Your task to perform on an android device: Where can I buy a nice beach tent? Image 0: 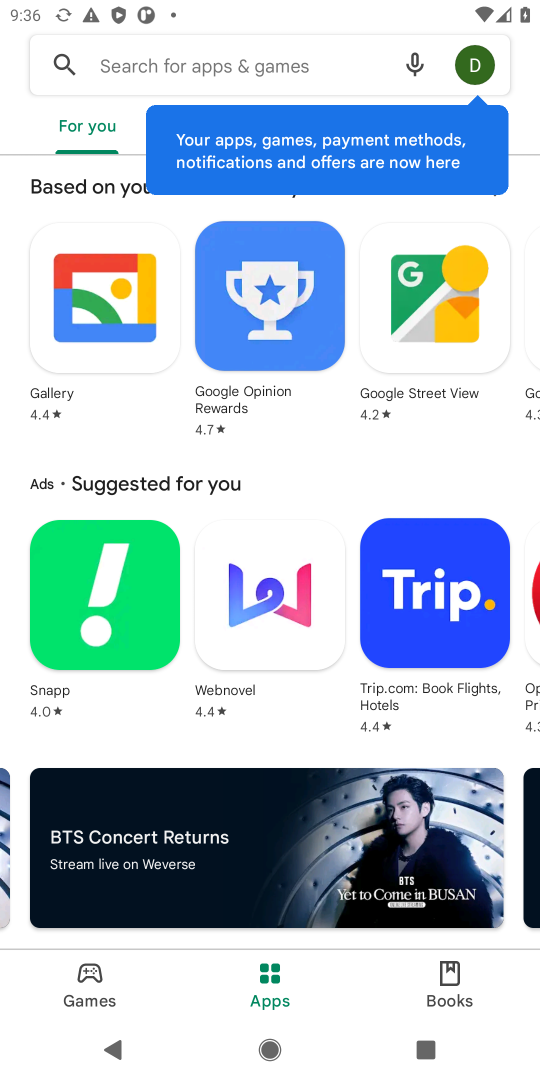
Step 0: press home button
Your task to perform on an android device: Where can I buy a nice beach tent? Image 1: 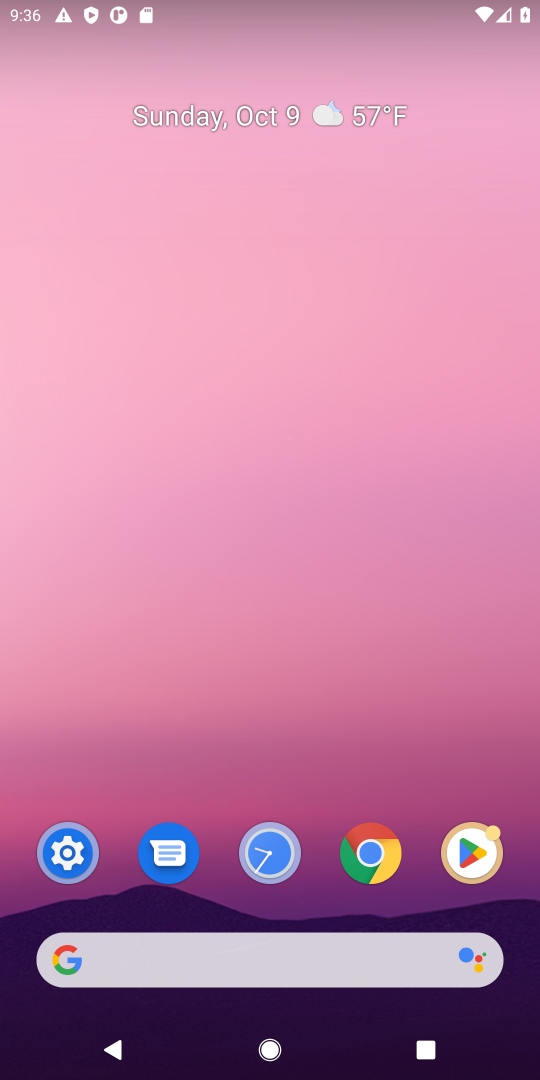
Step 1: click (357, 858)
Your task to perform on an android device: Where can I buy a nice beach tent? Image 2: 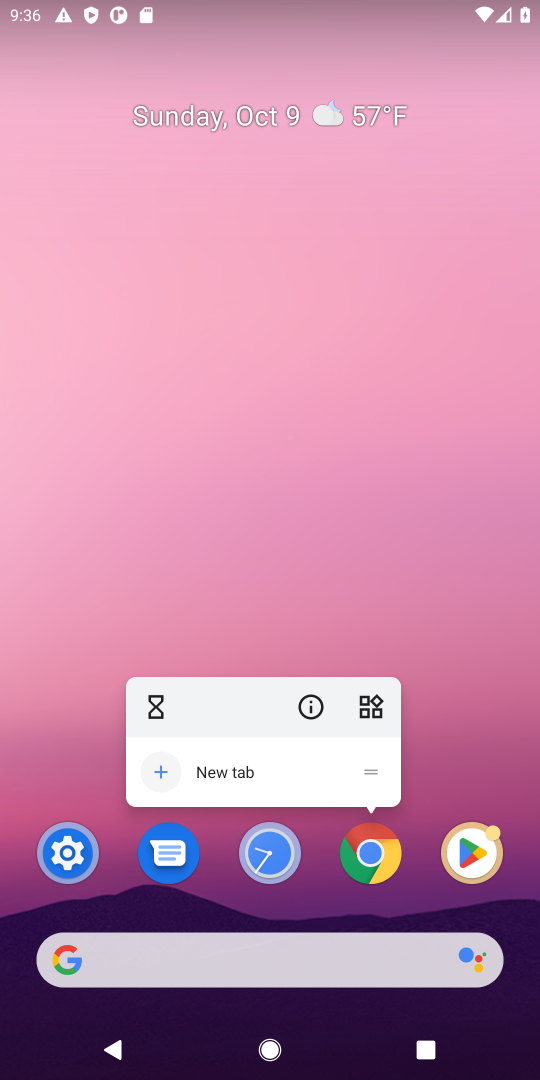
Step 2: click (430, 921)
Your task to perform on an android device: Where can I buy a nice beach tent? Image 3: 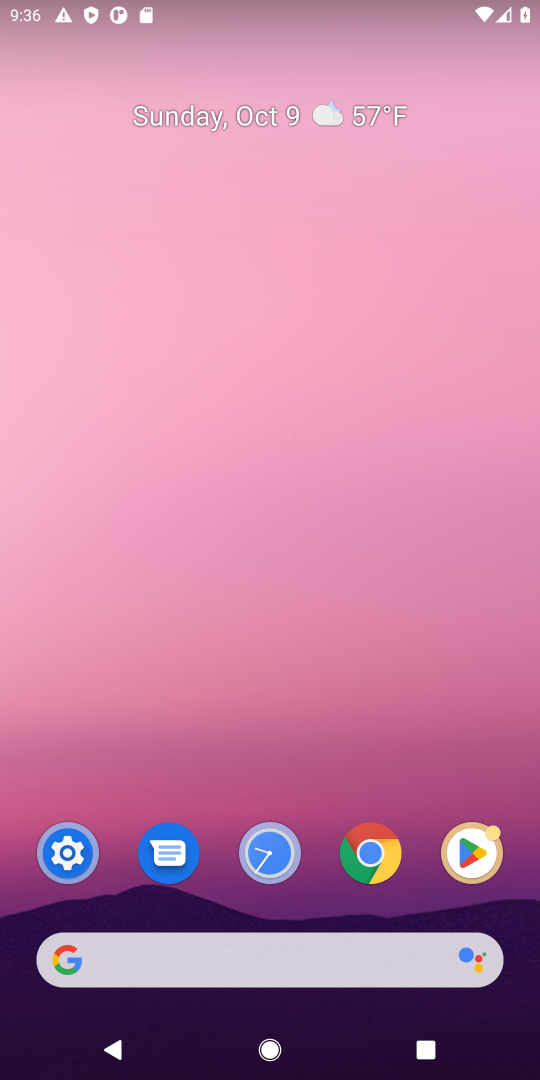
Step 3: click (386, 871)
Your task to perform on an android device: Where can I buy a nice beach tent? Image 4: 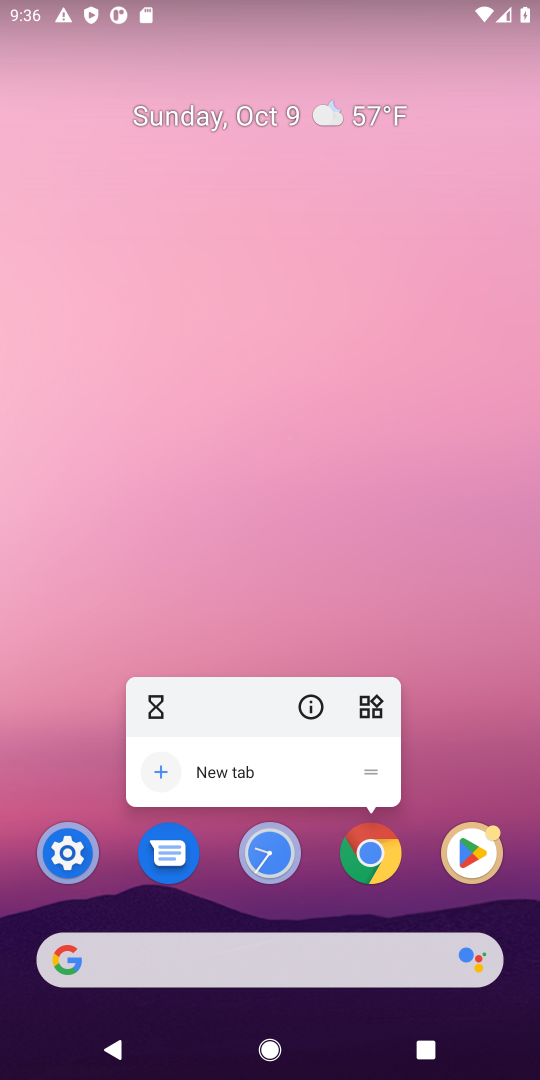
Step 4: click (322, 967)
Your task to perform on an android device: Where can I buy a nice beach tent? Image 5: 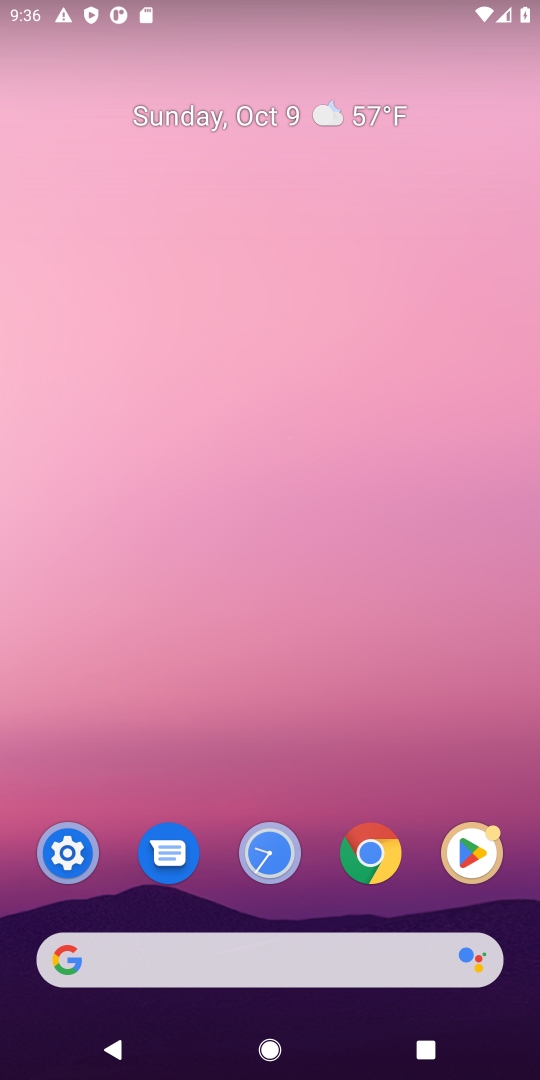
Step 5: click (289, 959)
Your task to perform on an android device: Where can I buy a nice beach tent? Image 6: 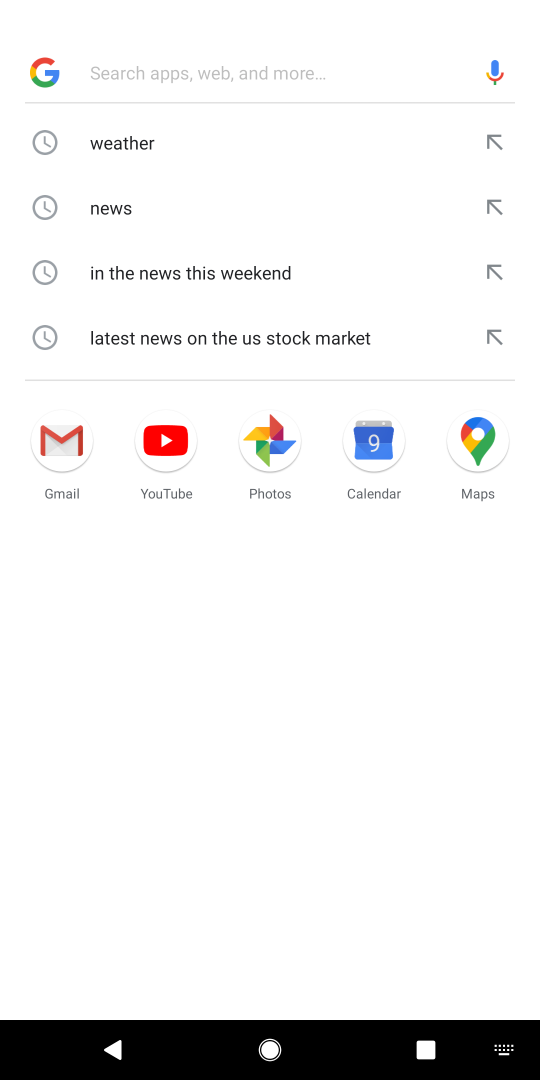
Step 6: type "Where can I buy a nice beach tent?"
Your task to perform on an android device: Where can I buy a nice beach tent? Image 7: 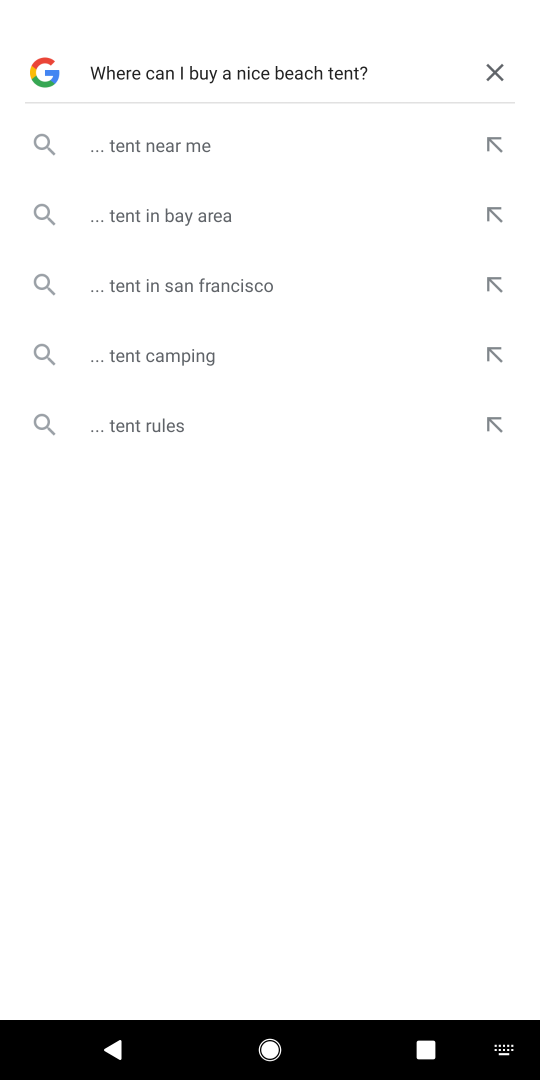
Step 7: type ""
Your task to perform on an android device: Where can I buy a nice beach tent? Image 8: 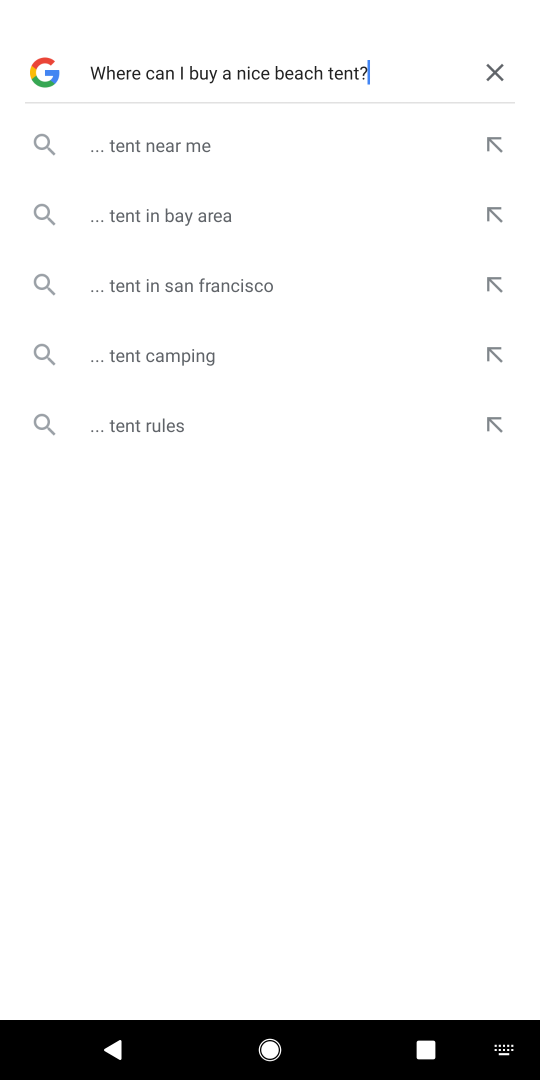
Step 8: press enter
Your task to perform on an android device: Where can I buy a nice beach tent? Image 9: 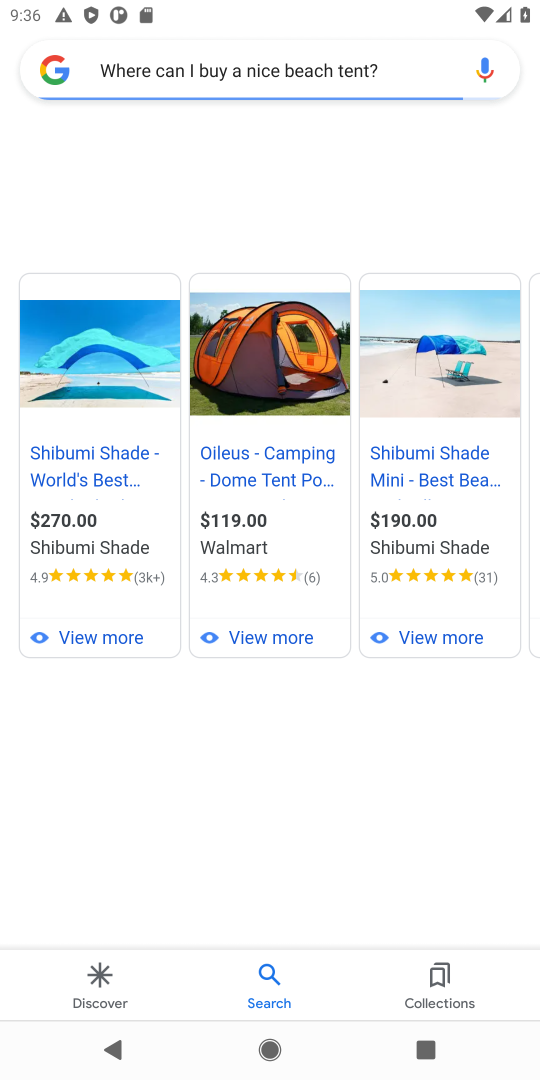
Step 9: drag from (222, 752) to (332, 284)
Your task to perform on an android device: Where can I buy a nice beach tent? Image 10: 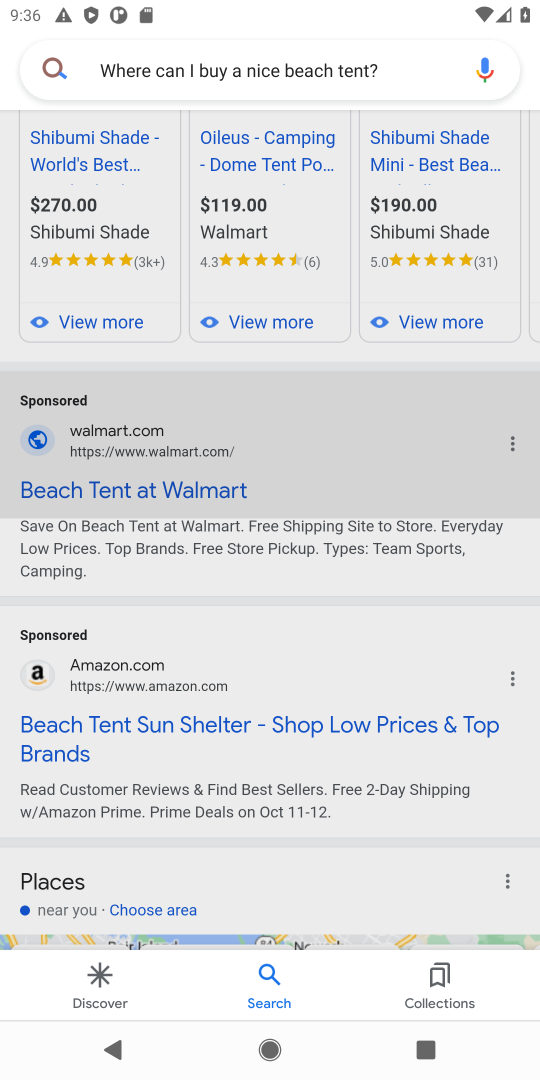
Step 10: drag from (294, 760) to (358, 303)
Your task to perform on an android device: Where can I buy a nice beach tent? Image 11: 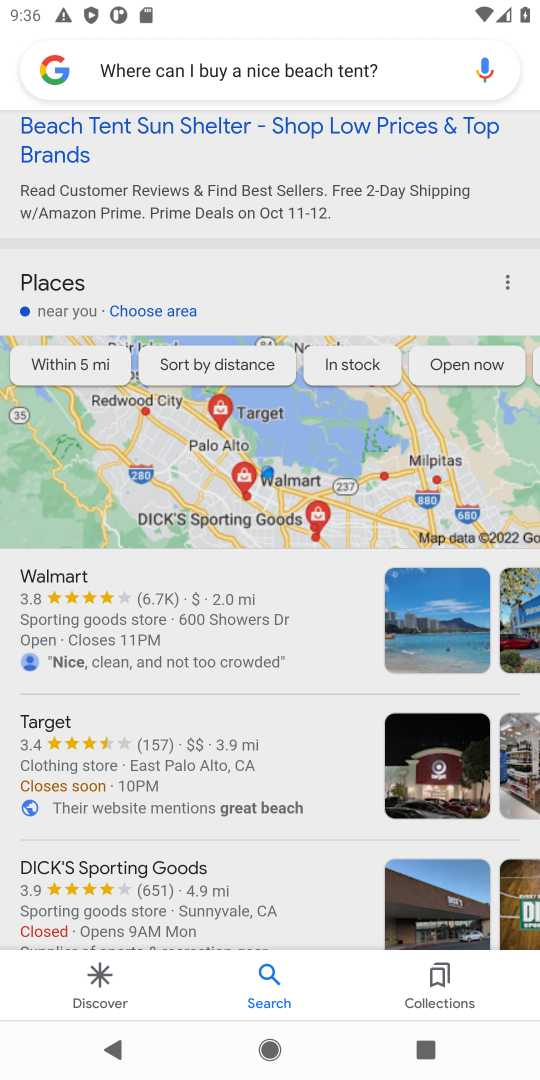
Step 11: drag from (315, 791) to (334, 305)
Your task to perform on an android device: Where can I buy a nice beach tent? Image 12: 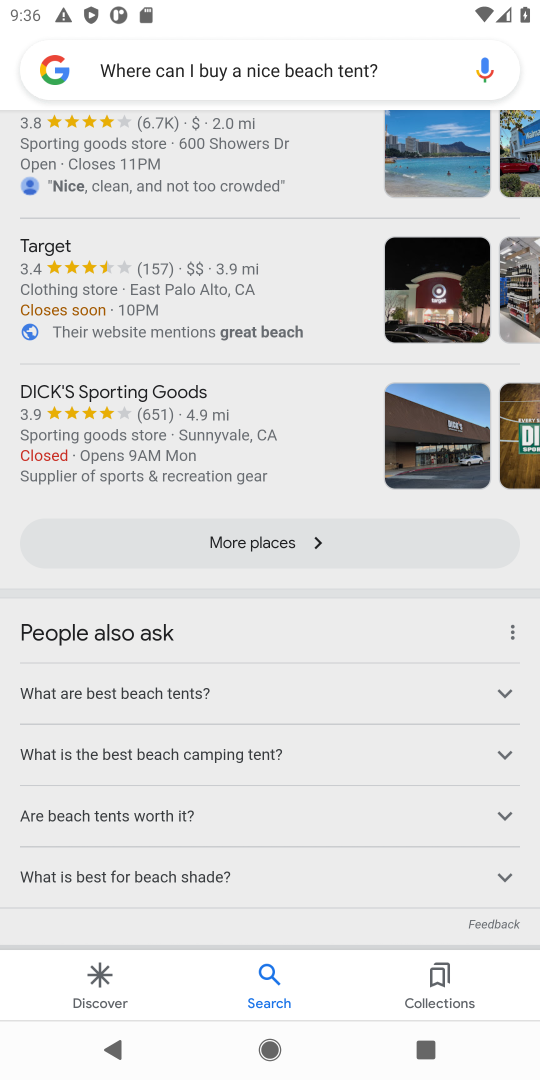
Step 12: drag from (378, 775) to (403, 322)
Your task to perform on an android device: Where can I buy a nice beach tent? Image 13: 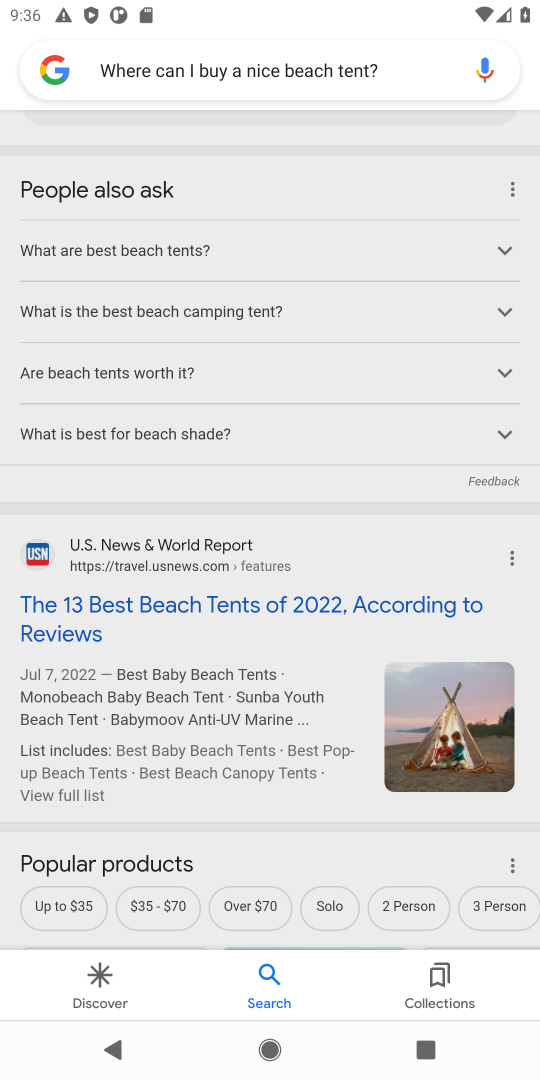
Step 13: drag from (351, 812) to (324, 400)
Your task to perform on an android device: Where can I buy a nice beach tent? Image 14: 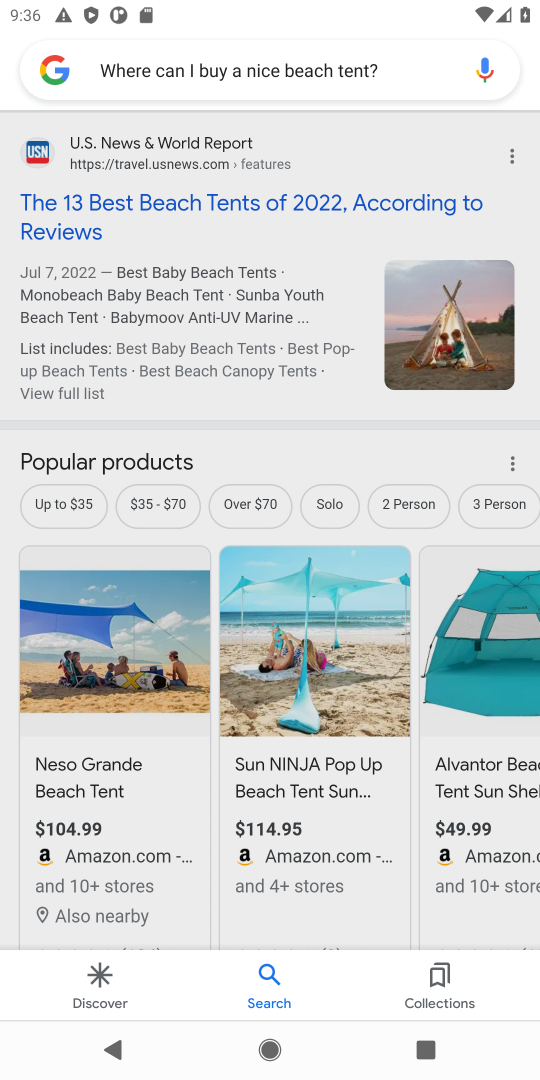
Step 14: drag from (380, 837) to (360, 318)
Your task to perform on an android device: Where can I buy a nice beach tent? Image 15: 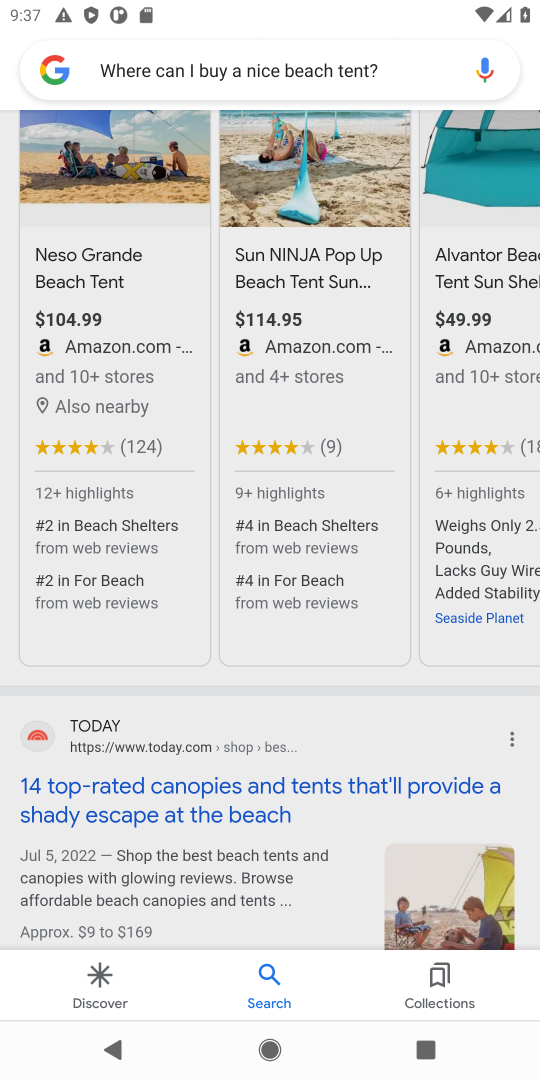
Step 15: drag from (299, 360) to (311, 894)
Your task to perform on an android device: Where can I buy a nice beach tent? Image 16: 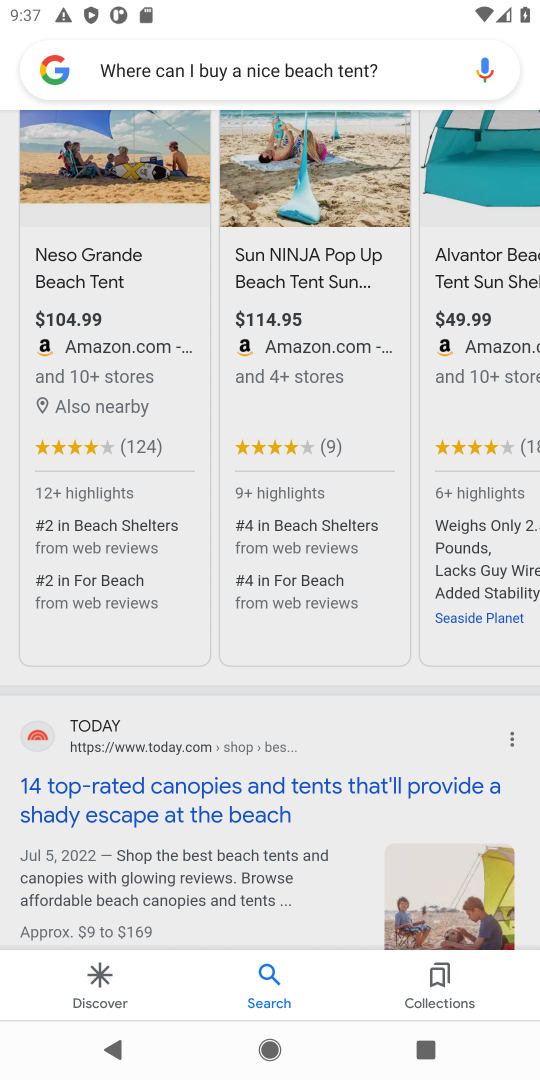
Step 16: drag from (257, 274) to (295, 784)
Your task to perform on an android device: Where can I buy a nice beach tent? Image 17: 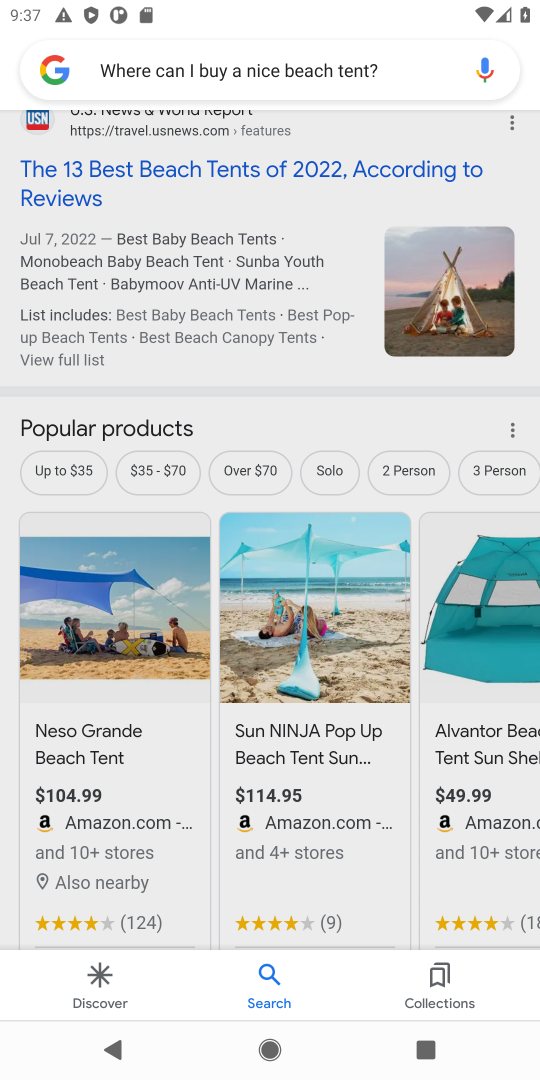
Step 17: drag from (272, 368) to (278, 697)
Your task to perform on an android device: Where can I buy a nice beach tent? Image 18: 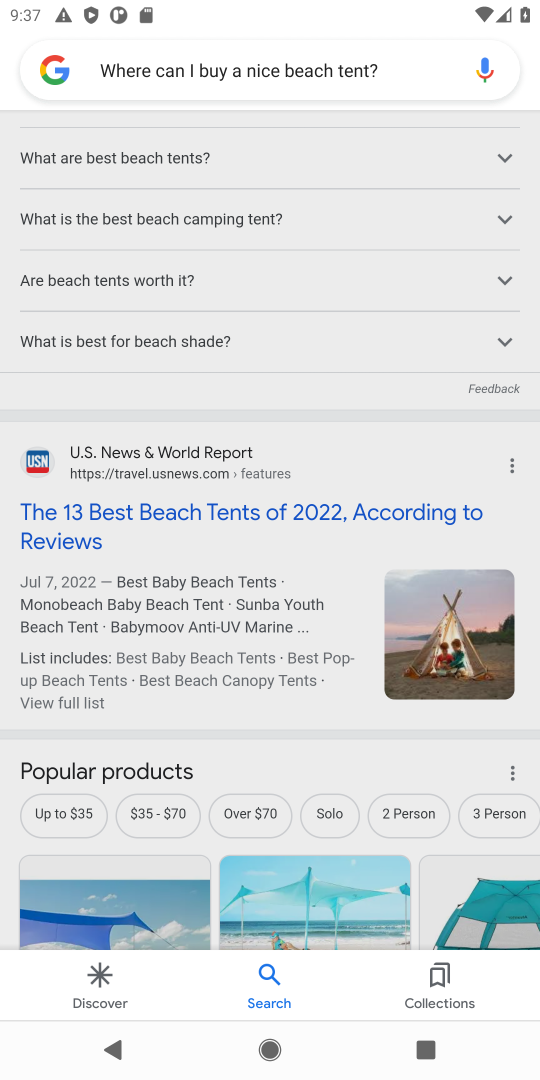
Step 18: drag from (239, 361) to (240, 696)
Your task to perform on an android device: Where can I buy a nice beach tent? Image 19: 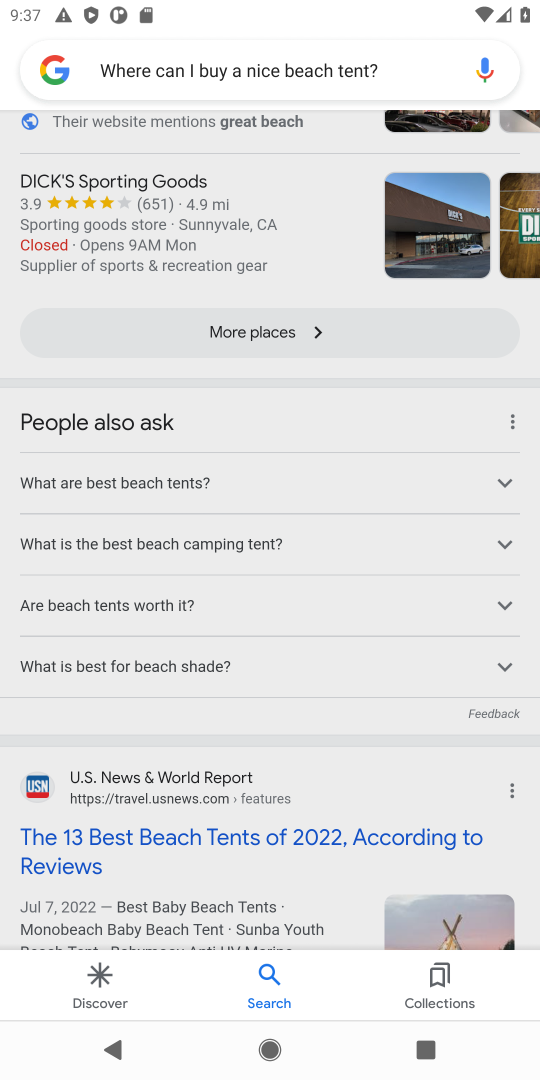
Step 19: drag from (280, 436) to (266, 577)
Your task to perform on an android device: Where can I buy a nice beach tent? Image 20: 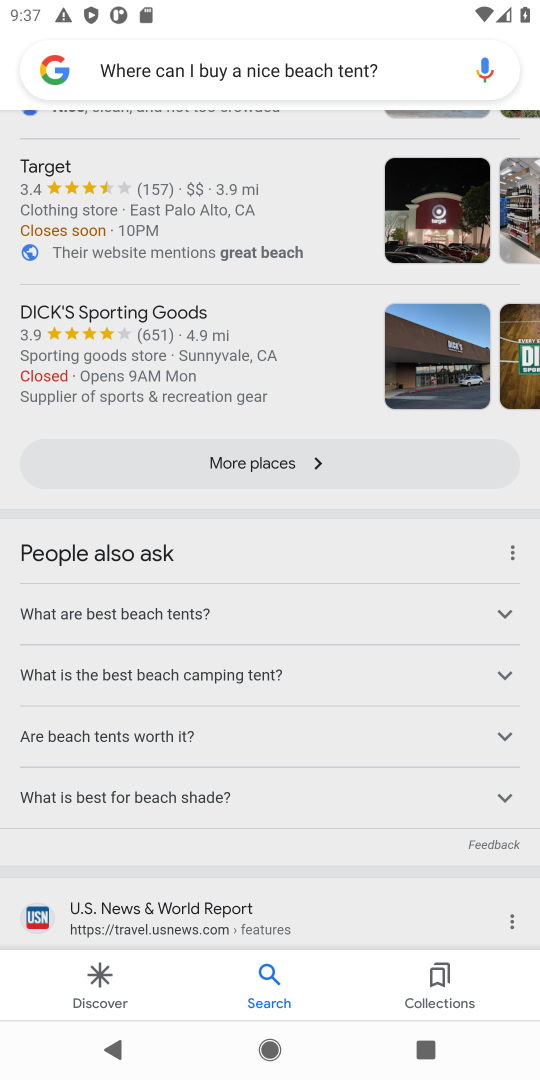
Step 20: drag from (237, 231) to (307, 898)
Your task to perform on an android device: Where can I buy a nice beach tent? Image 21: 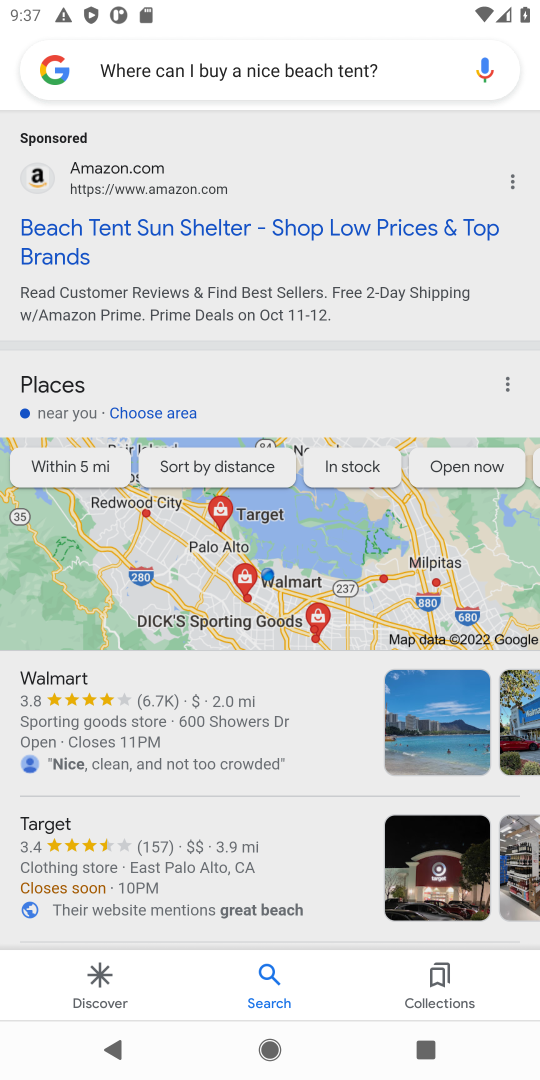
Step 21: drag from (338, 282) to (357, 946)
Your task to perform on an android device: Where can I buy a nice beach tent? Image 22: 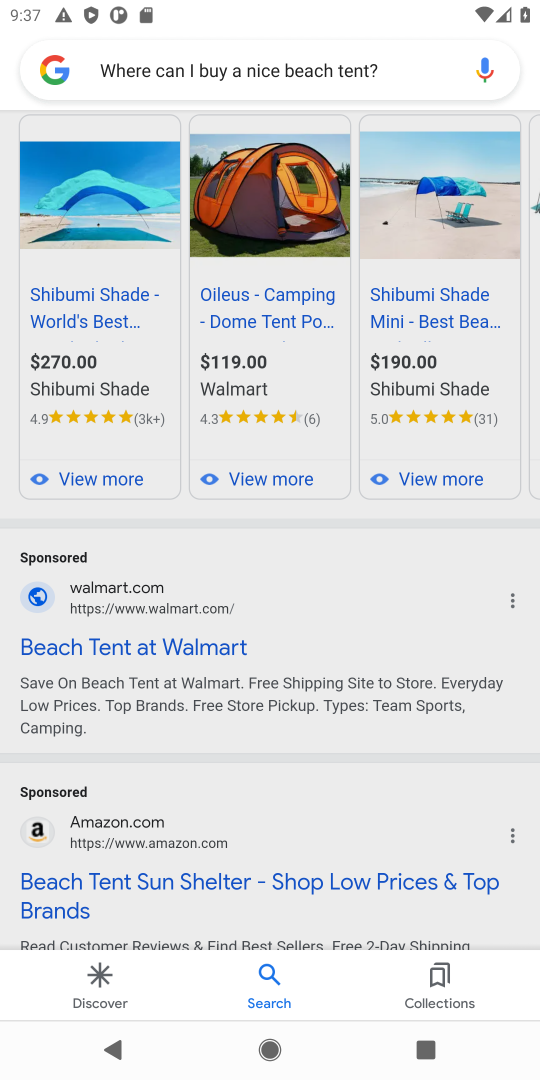
Step 22: drag from (172, 279) to (254, 886)
Your task to perform on an android device: Where can I buy a nice beach tent? Image 23: 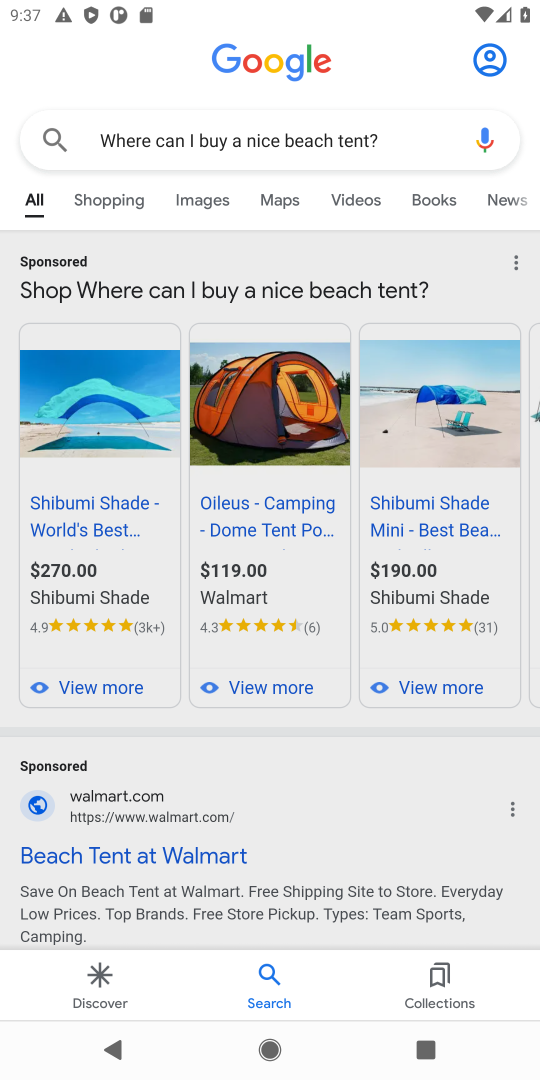
Step 23: click (113, 585)
Your task to perform on an android device: Where can I buy a nice beach tent? Image 24: 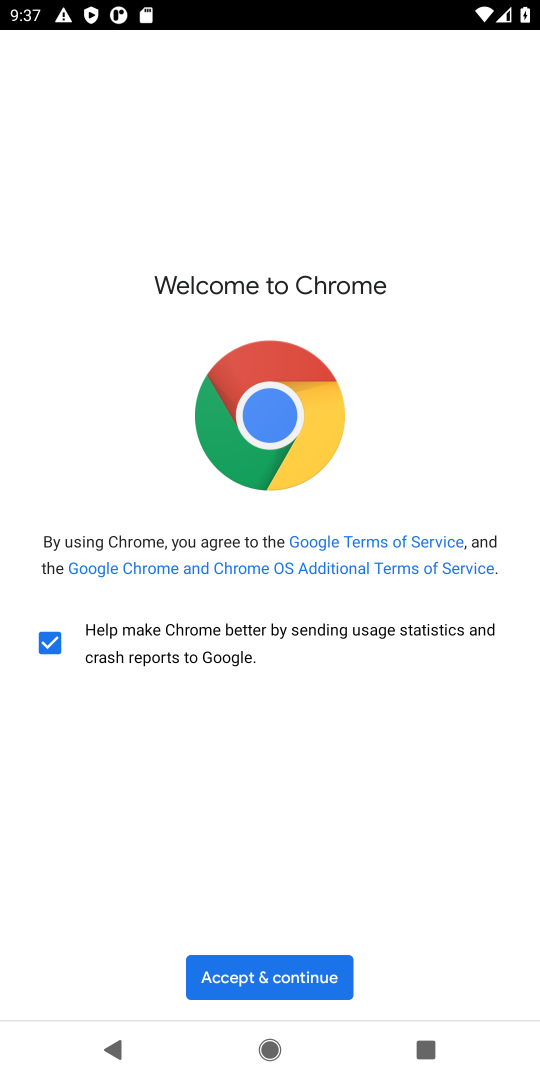
Step 24: click (285, 992)
Your task to perform on an android device: Where can I buy a nice beach tent? Image 25: 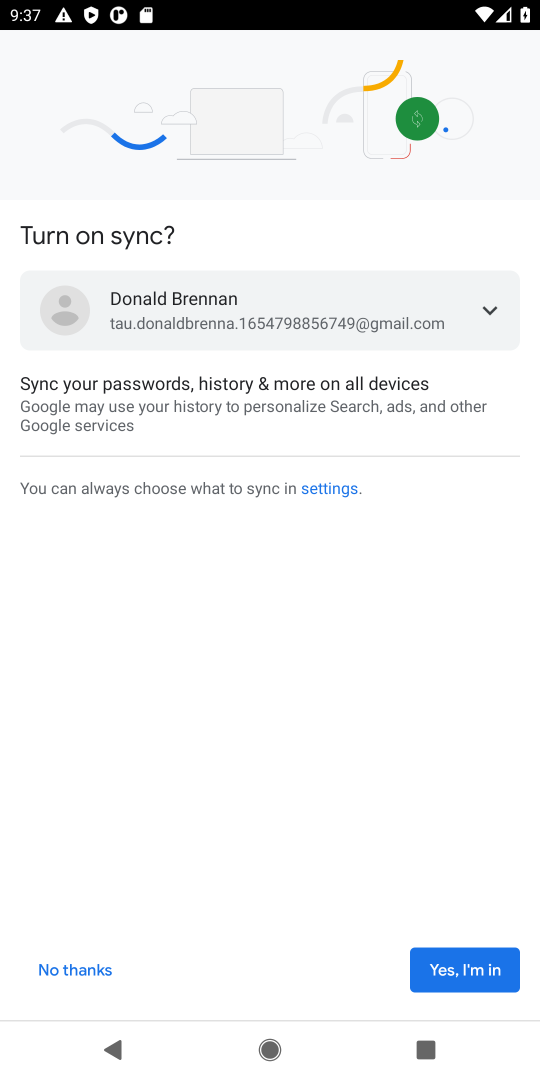
Step 25: click (425, 975)
Your task to perform on an android device: Where can I buy a nice beach tent? Image 26: 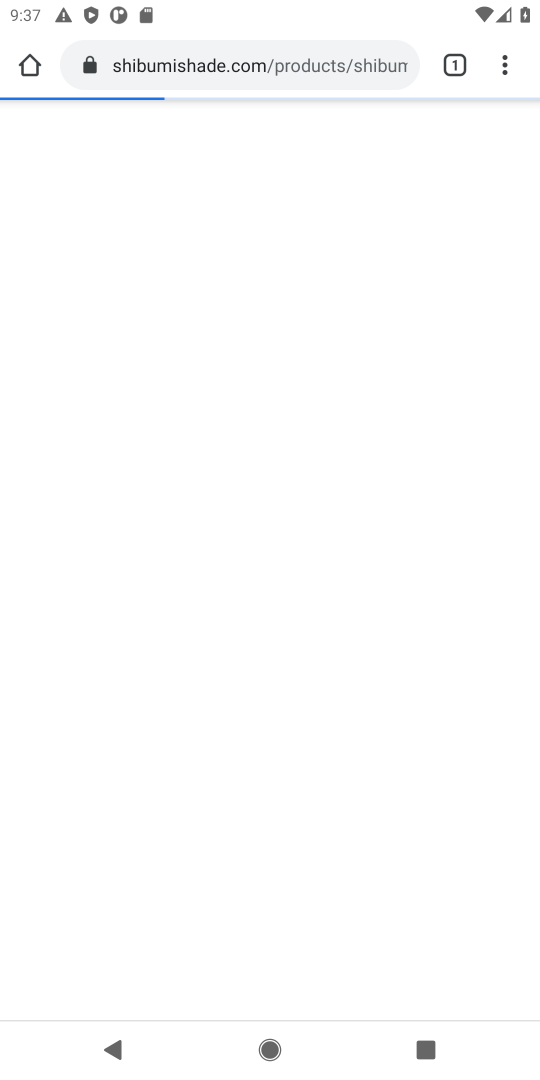
Step 26: drag from (425, 975) to (399, 263)
Your task to perform on an android device: Where can I buy a nice beach tent? Image 27: 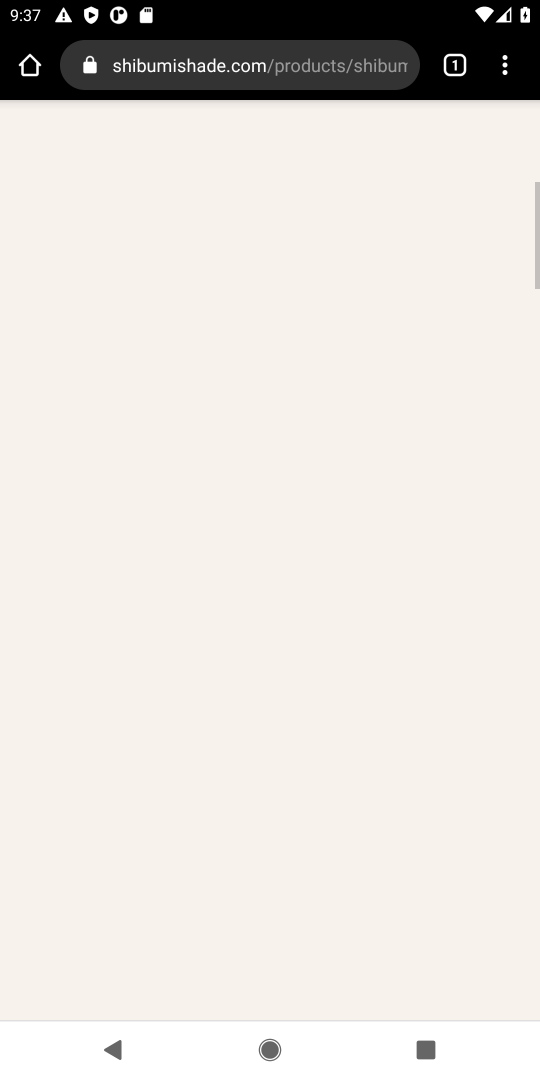
Step 27: drag from (322, 770) to (389, 184)
Your task to perform on an android device: Where can I buy a nice beach tent? Image 28: 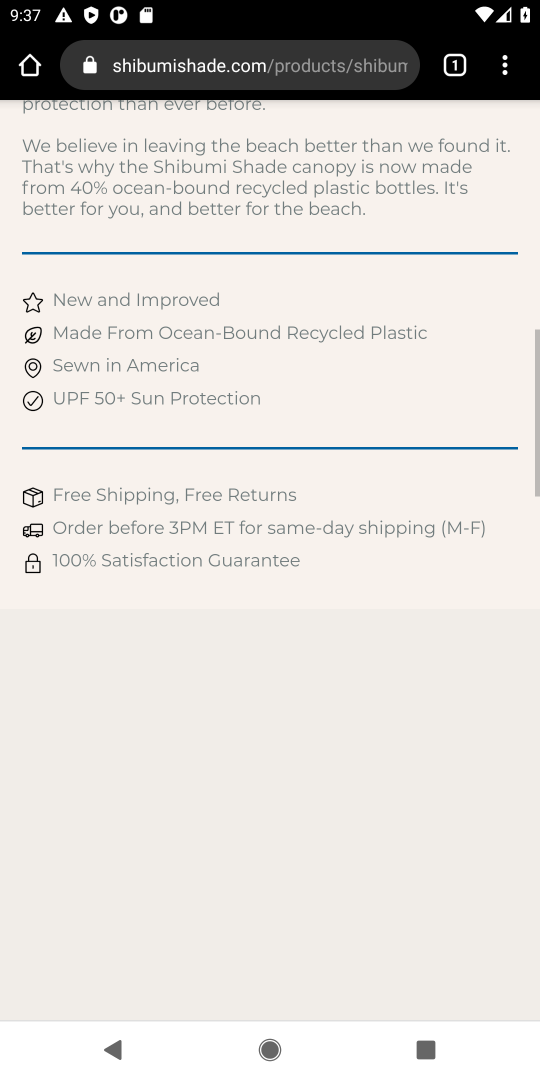
Step 28: drag from (377, 751) to (389, 286)
Your task to perform on an android device: Where can I buy a nice beach tent? Image 29: 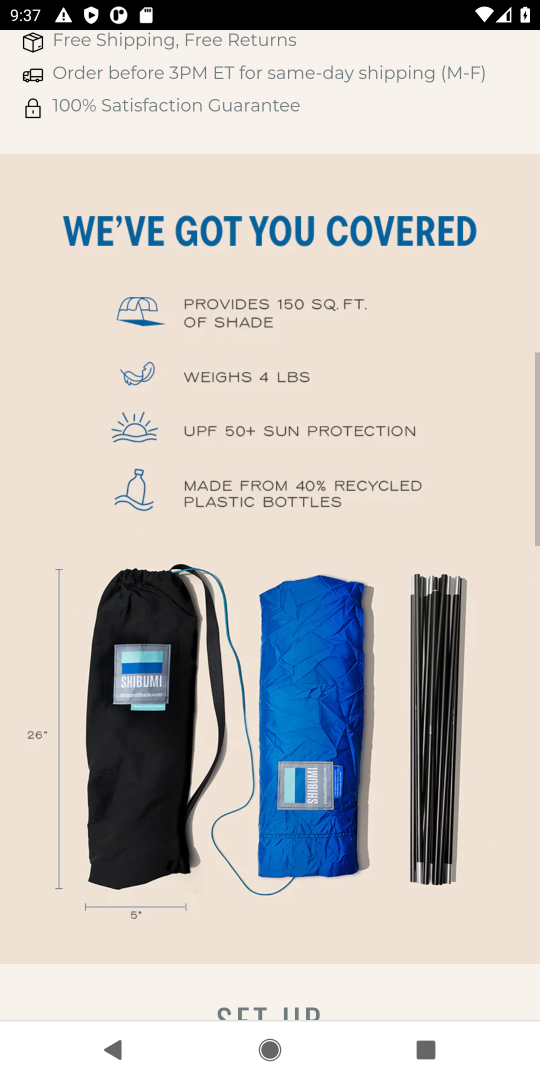
Step 29: drag from (359, 797) to (413, 143)
Your task to perform on an android device: Where can I buy a nice beach tent? Image 30: 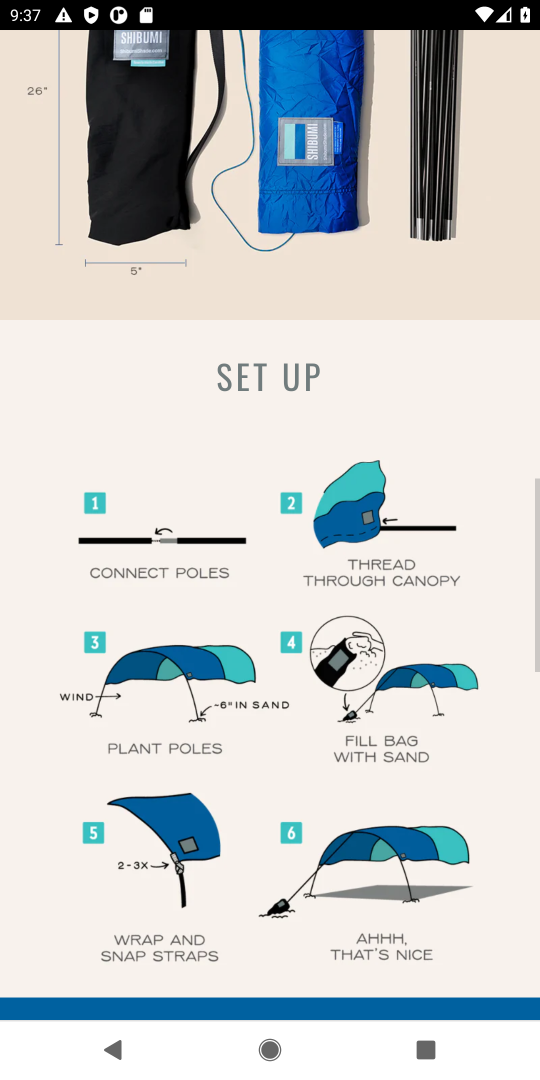
Step 30: drag from (426, 670) to (435, 147)
Your task to perform on an android device: Where can I buy a nice beach tent? Image 31: 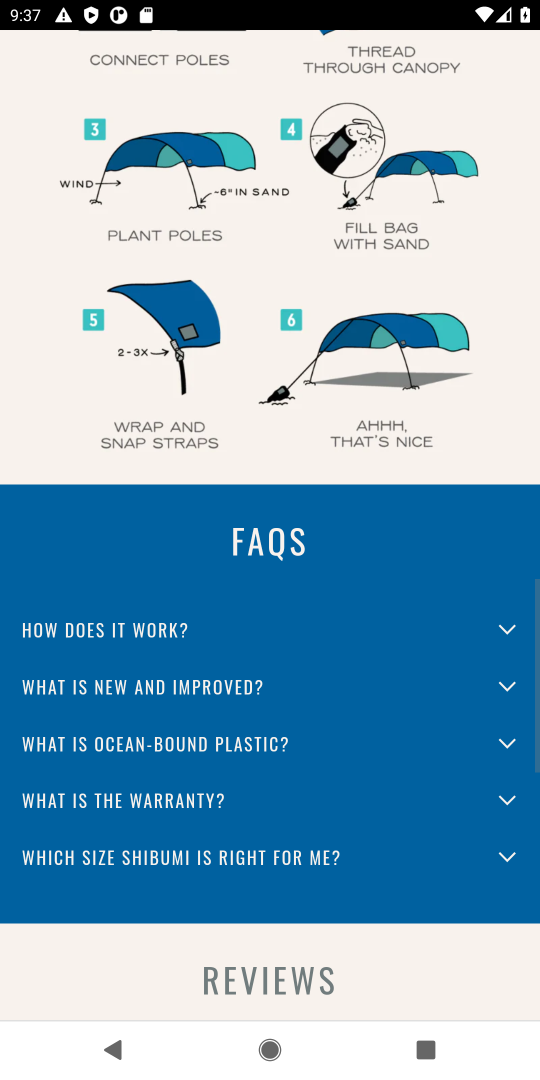
Step 31: drag from (393, 765) to (421, 41)
Your task to perform on an android device: Where can I buy a nice beach tent? Image 32: 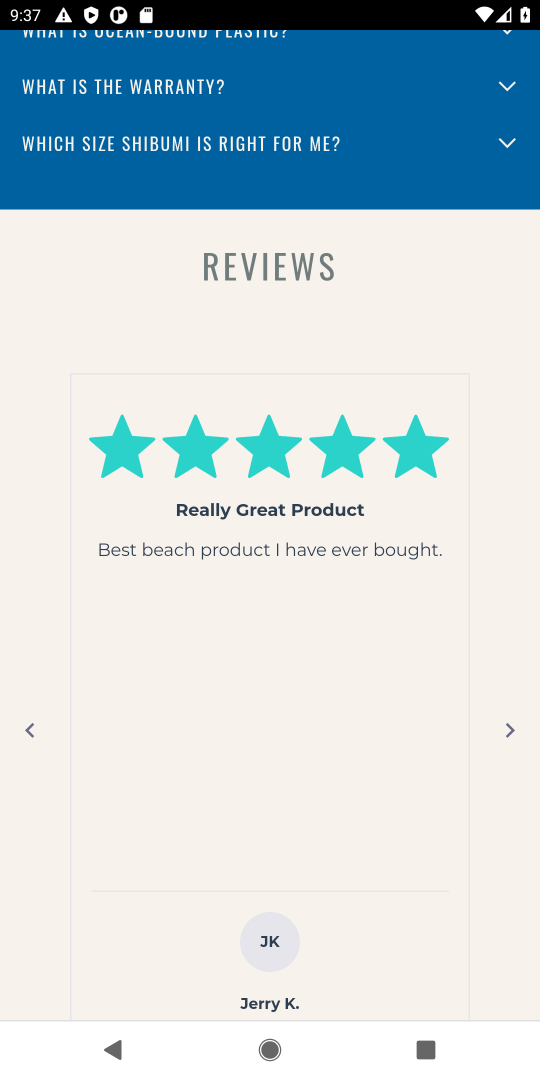
Step 32: drag from (413, 953) to (431, 18)
Your task to perform on an android device: Where can I buy a nice beach tent? Image 33: 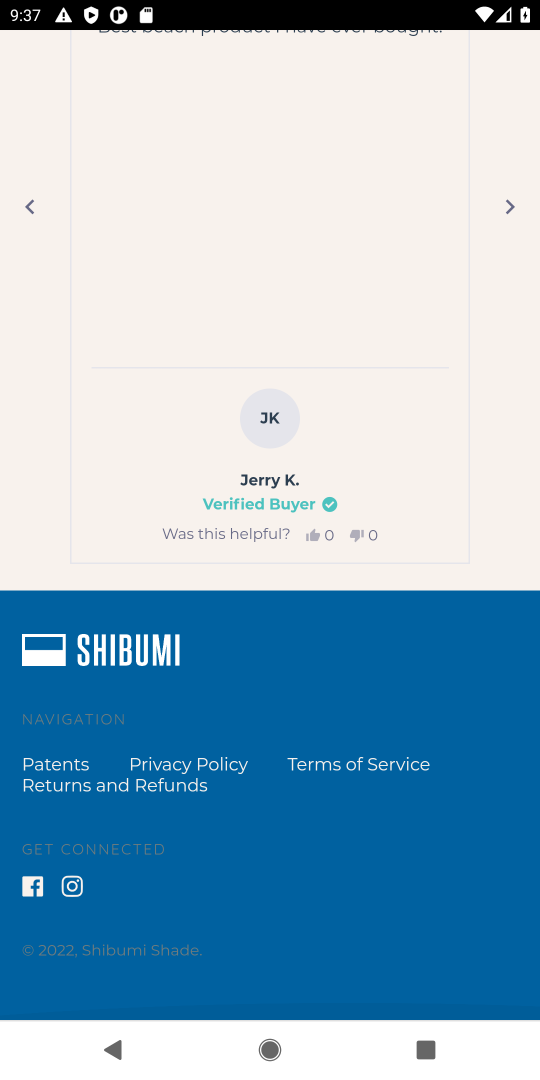
Step 33: drag from (406, 919) to (456, 122)
Your task to perform on an android device: Where can I buy a nice beach tent? Image 34: 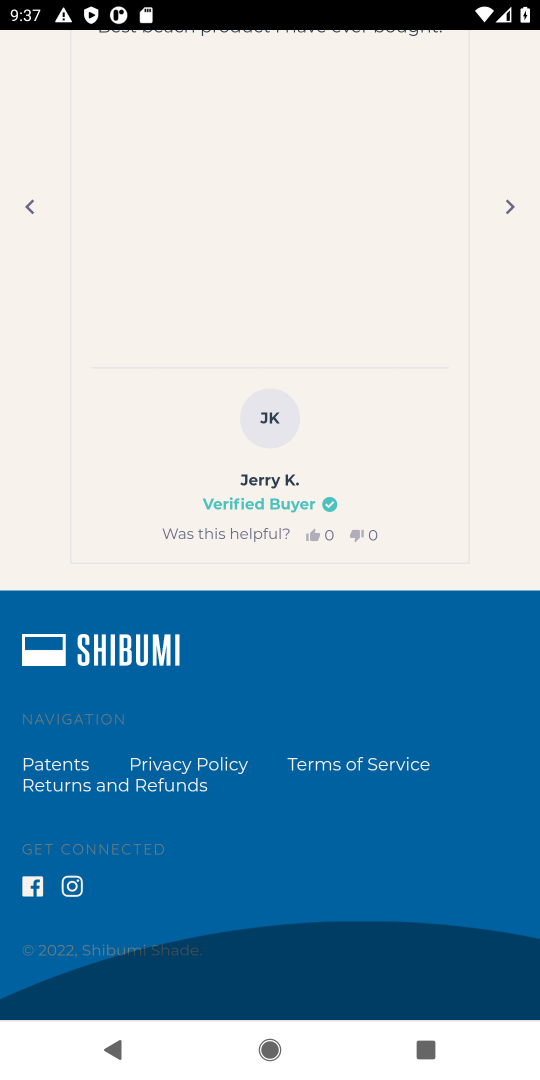
Step 34: drag from (415, 215) to (413, 968)
Your task to perform on an android device: Where can I buy a nice beach tent? Image 35: 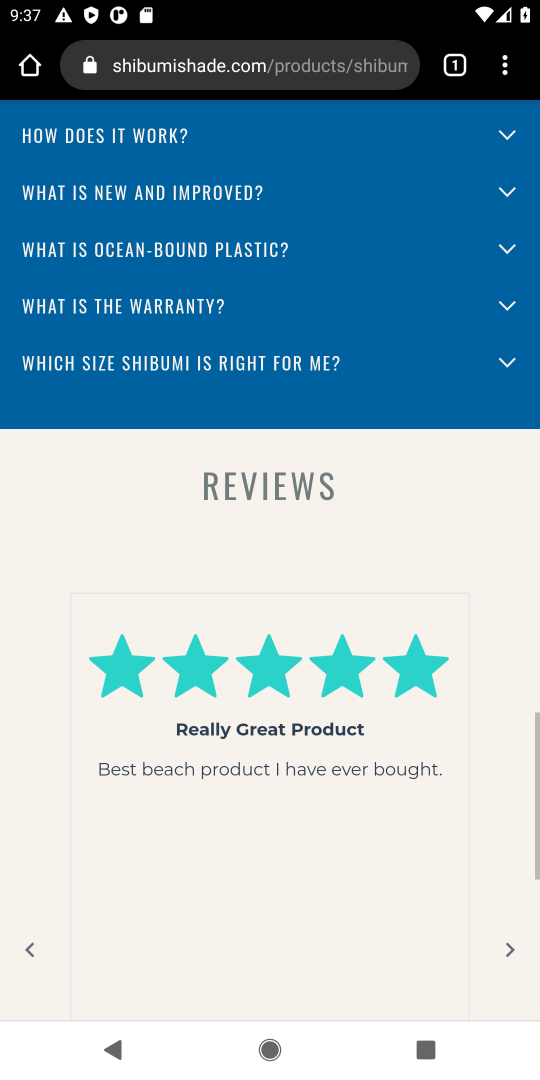
Step 35: drag from (363, 297) to (367, 912)
Your task to perform on an android device: Where can I buy a nice beach tent? Image 36: 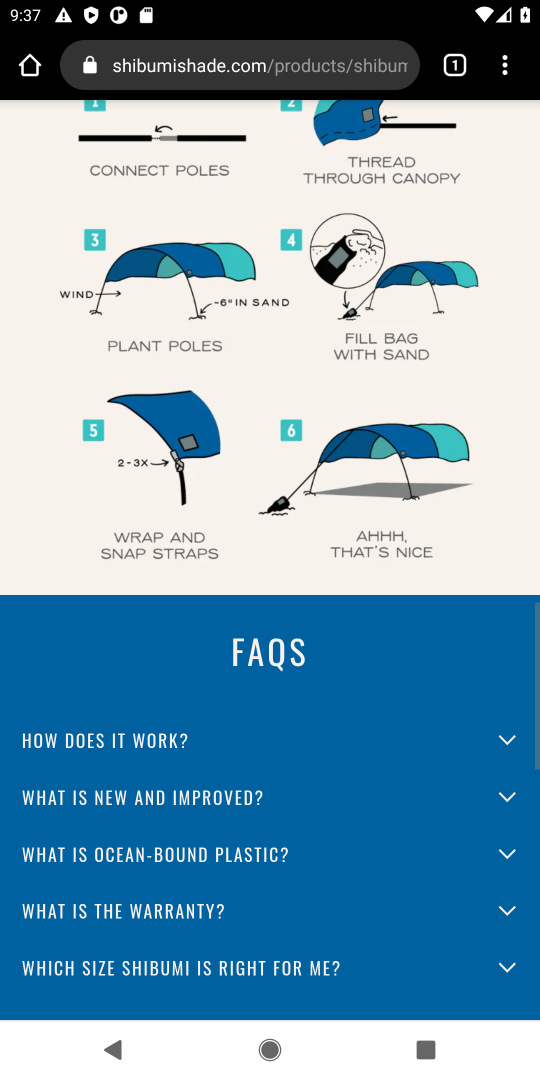
Step 36: drag from (356, 334) to (360, 966)
Your task to perform on an android device: Where can I buy a nice beach tent? Image 37: 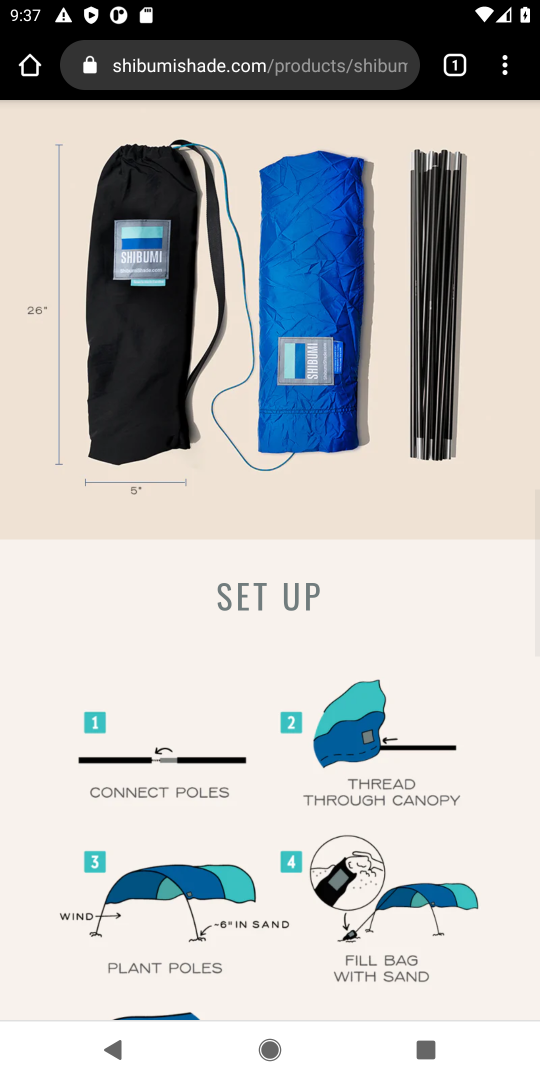
Step 37: drag from (307, 278) to (346, 728)
Your task to perform on an android device: Where can I buy a nice beach tent? Image 38: 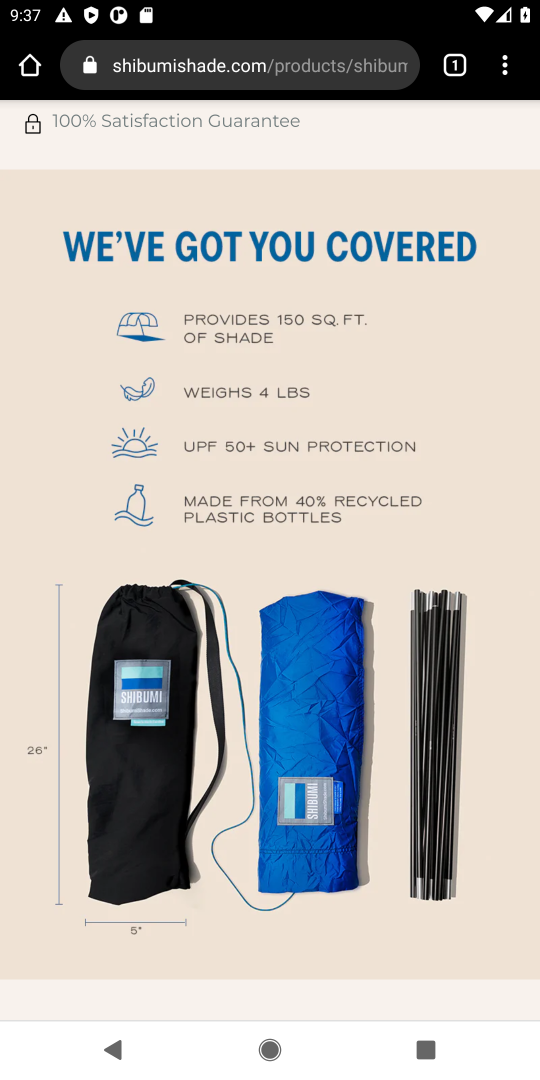
Step 38: press back button
Your task to perform on an android device: Where can I buy a nice beach tent? Image 39: 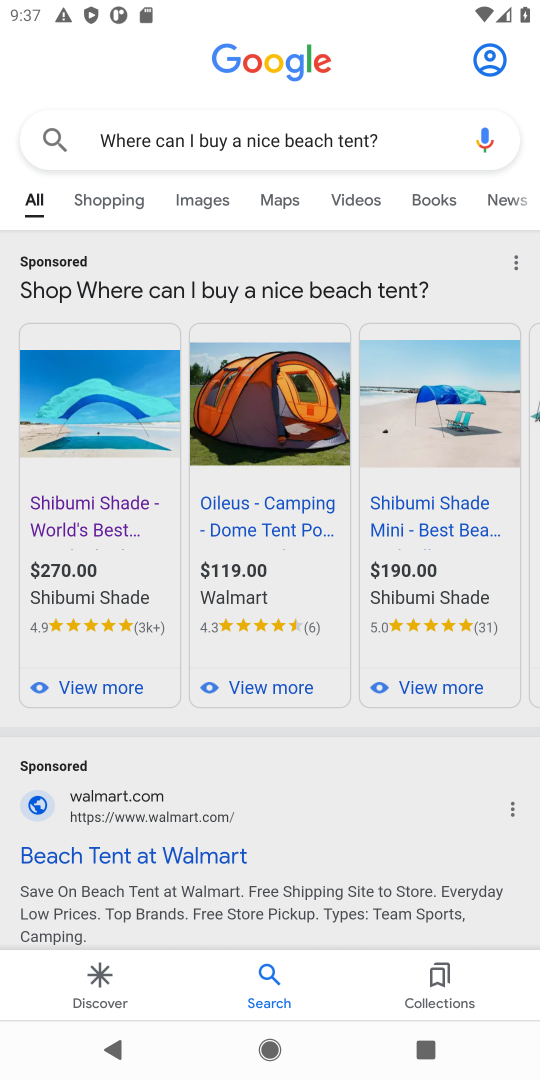
Step 39: click (228, 510)
Your task to perform on an android device: Where can I buy a nice beach tent? Image 40: 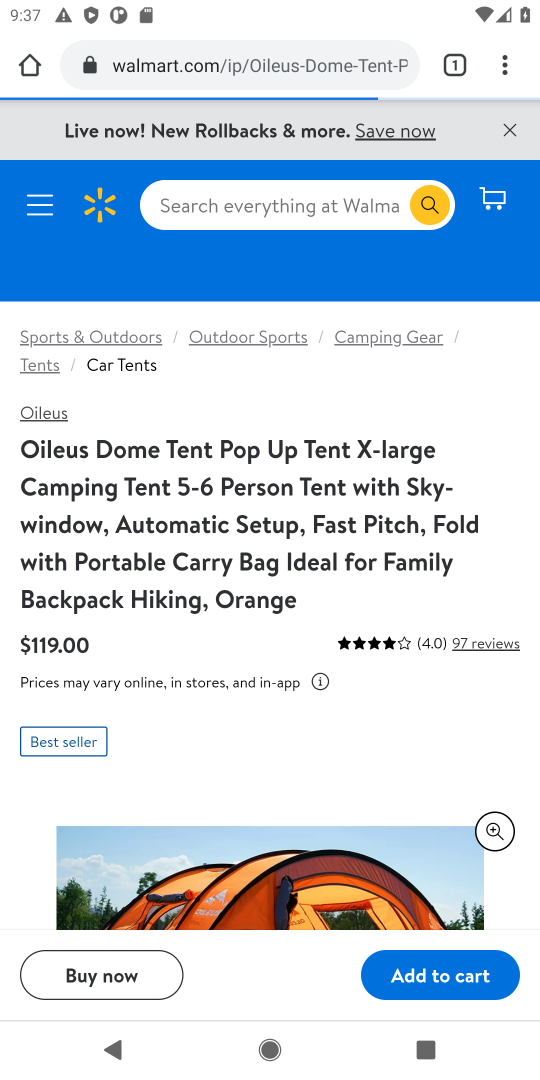
Step 40: drag from (316, 726) to (299, 203)
Your task to perform on an android device: Where can I buy a nice beach tent? Image 41: 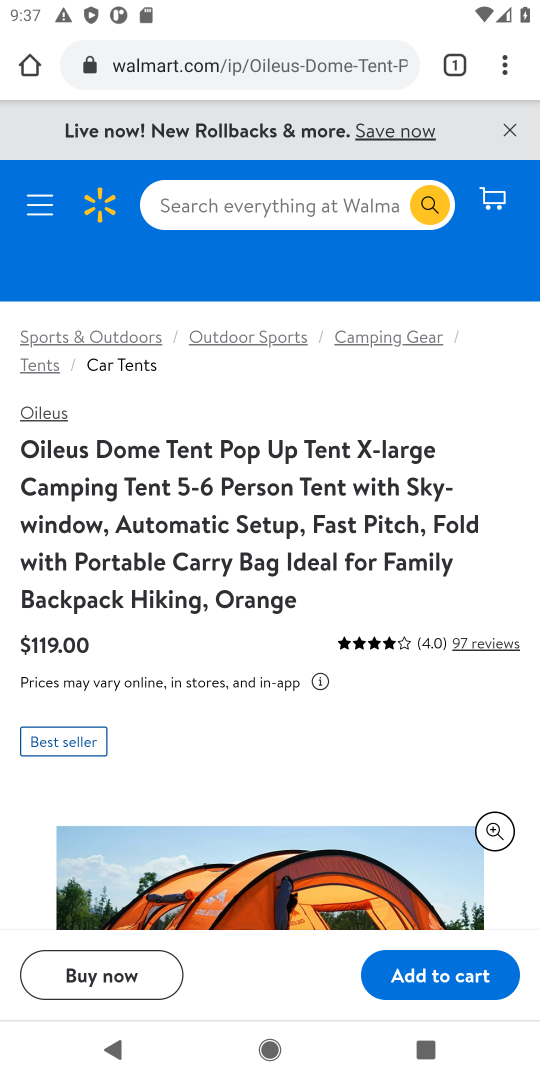
Step 41: drag from (323, 762) to (340, 322)
Your task to perform on an android device: Where can I buy a nice beach tent? Image 42: 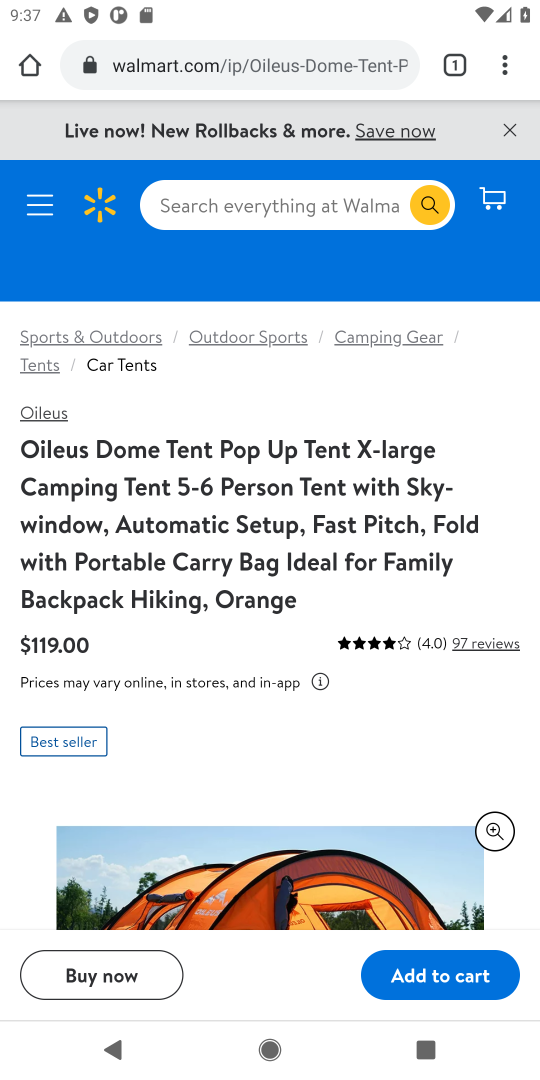
Step 42: drag from (277, 866) to (321, 362)
Your task to perform on an android device: Where can I buy a nice beach tent? Image 43: 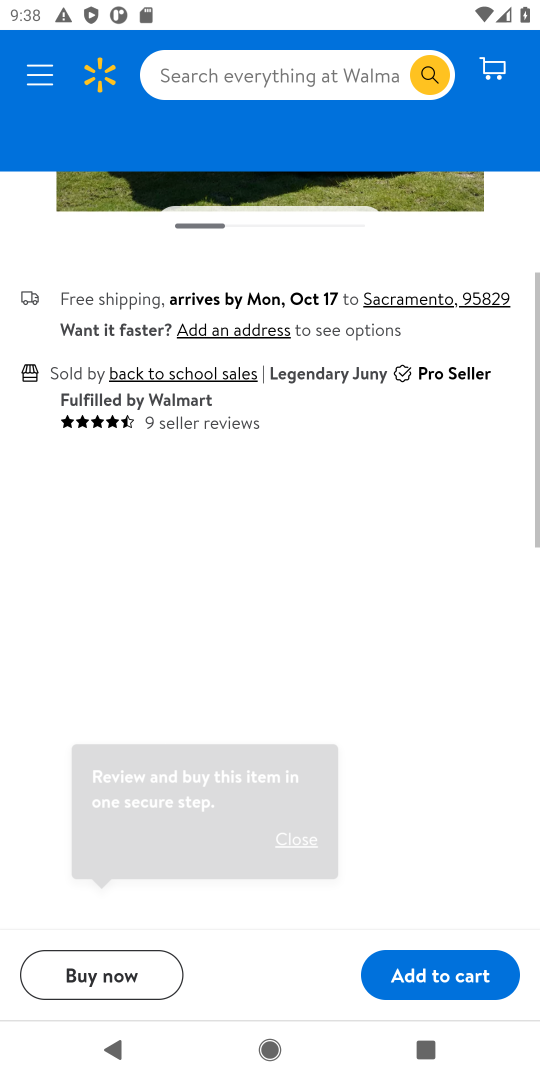
Step 43: drag from (336, 766) to (333, 327)
Your task to perform on an android device: Where can I buy a nice beach tent? Image 44: 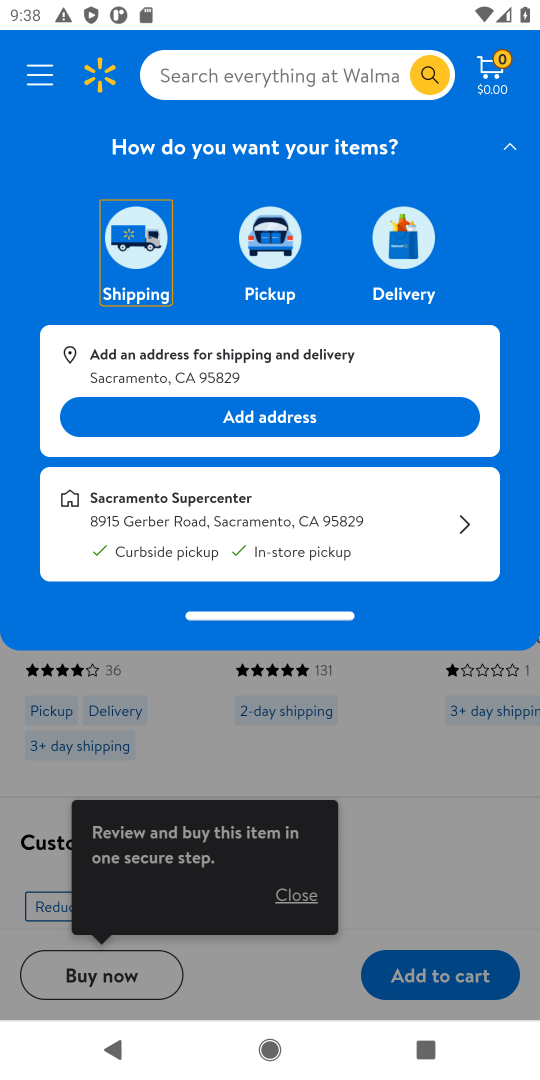
Step 44: click (286, 910)
Your task to perform on an android device: Where can I buy a nice beach tent? Image 45: 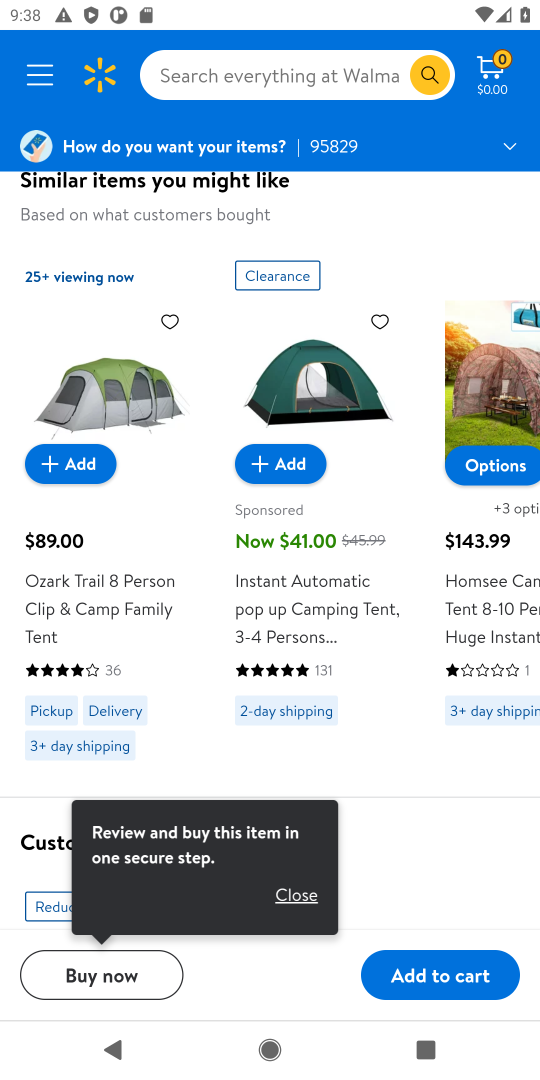
Step 45: drag from (359, 725) to (329, 441)
Your task to perform on an android device: Where can I buy a nice beach tent? Image 46: 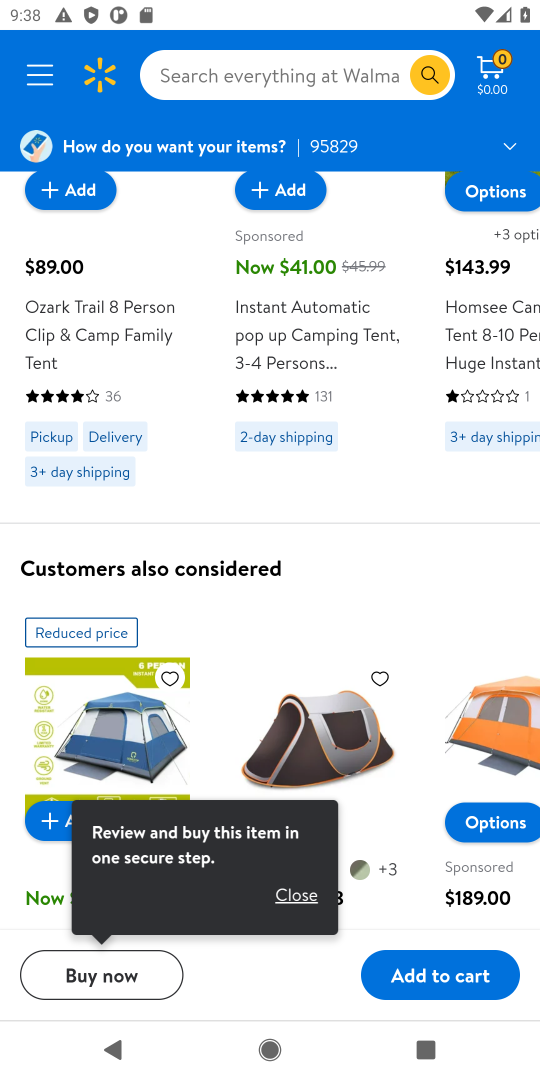
Step 46: drag from (347, 426) to (369, 736)
Your task to perform on an android device: Where can I buy a nice beach tent? Image 47: 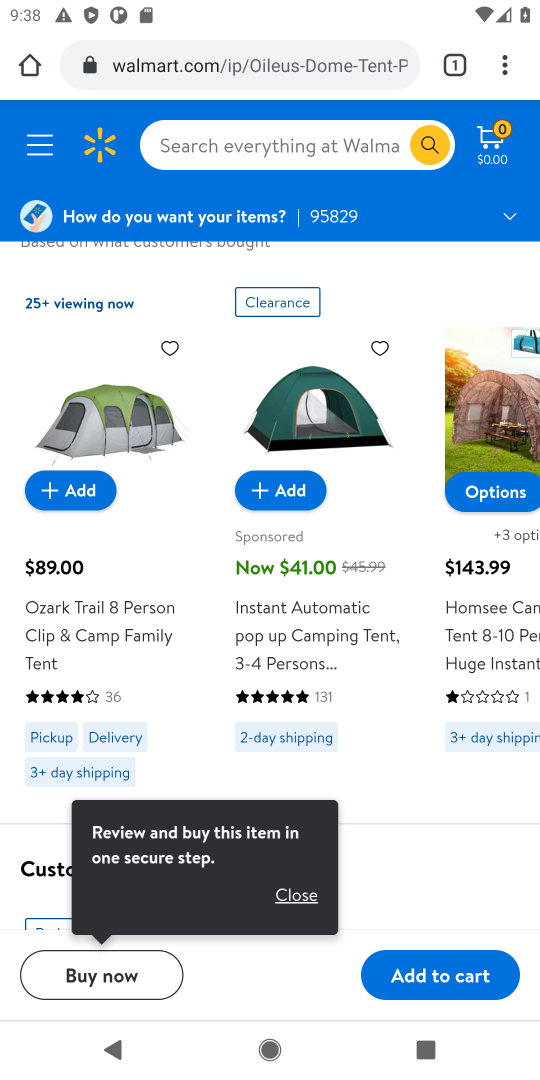
Step 47: drag from (473, 479) to (4, 509)
Your task to perform on an android device: Where can I buy a nice beach tent? Image 48: 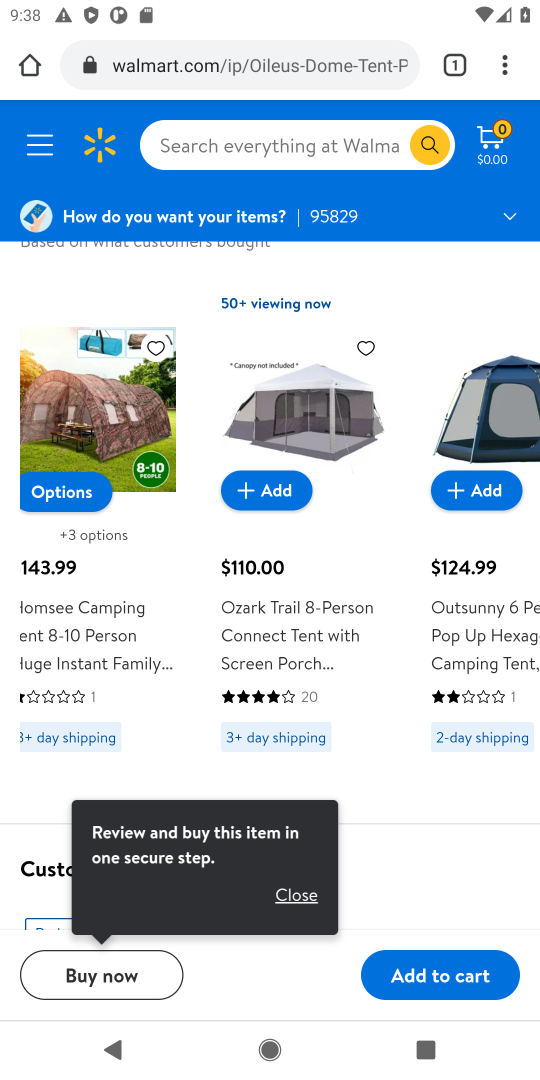
Step 48: drag from (440, 540) to (51, 586)
Your task to perform on an android device: Where can I buy a nice beach tent? Image 49: 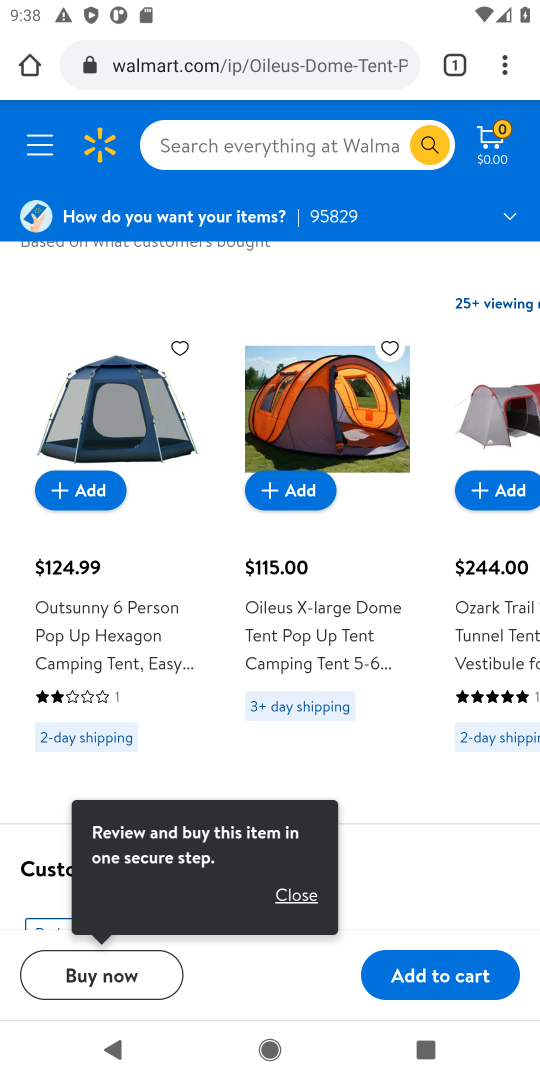
Step 49: drag from (371, 583) to (24, 609)
Your task to perform on an android device: Where can I buy a nice beach tent? Image 50: 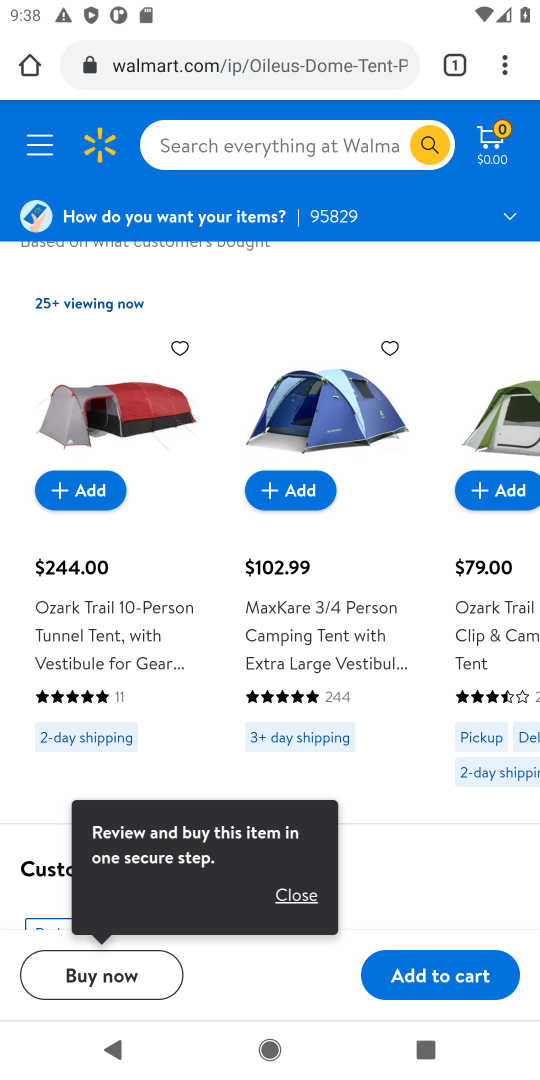
Step 50: drag from (411, 545) to (176, 540)
Your task to perform on an android device: Where can I buy a nice beach tent? Image 51: 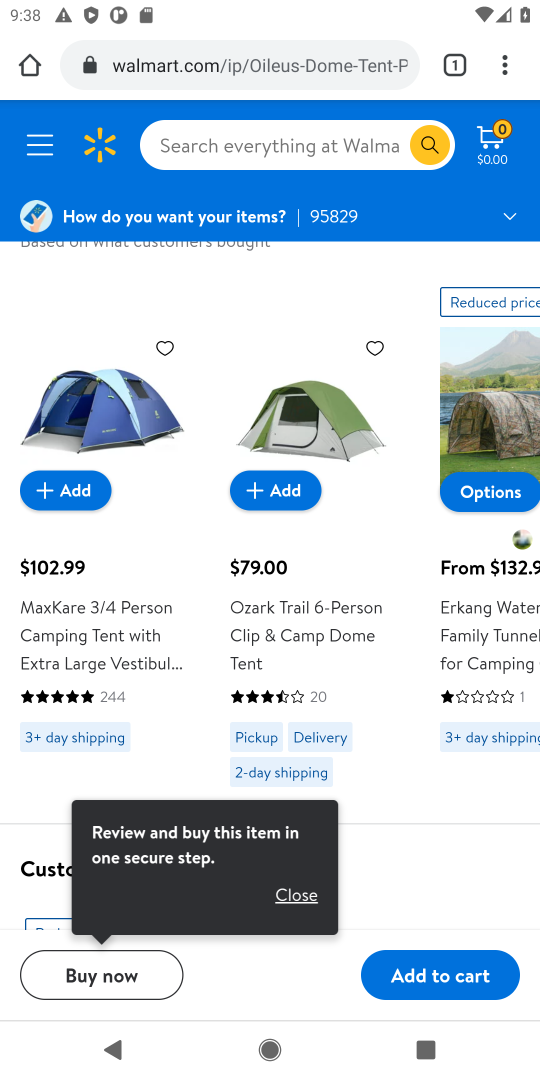
Step 51: drag from (362, 530) to (97, 549)
Your task to perform on an android device: Where can I buy a nice beach tent? Image 52: 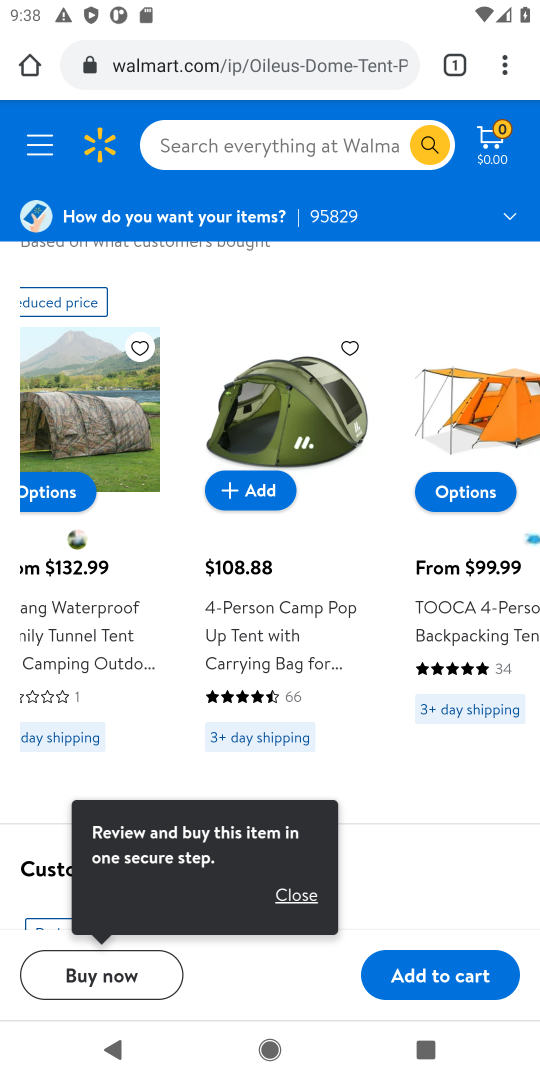
Step 52: drag from (318, 555) to (47, 573)
Your task to perform on an android device: Where can I buy a nice beach tent? Image 53: 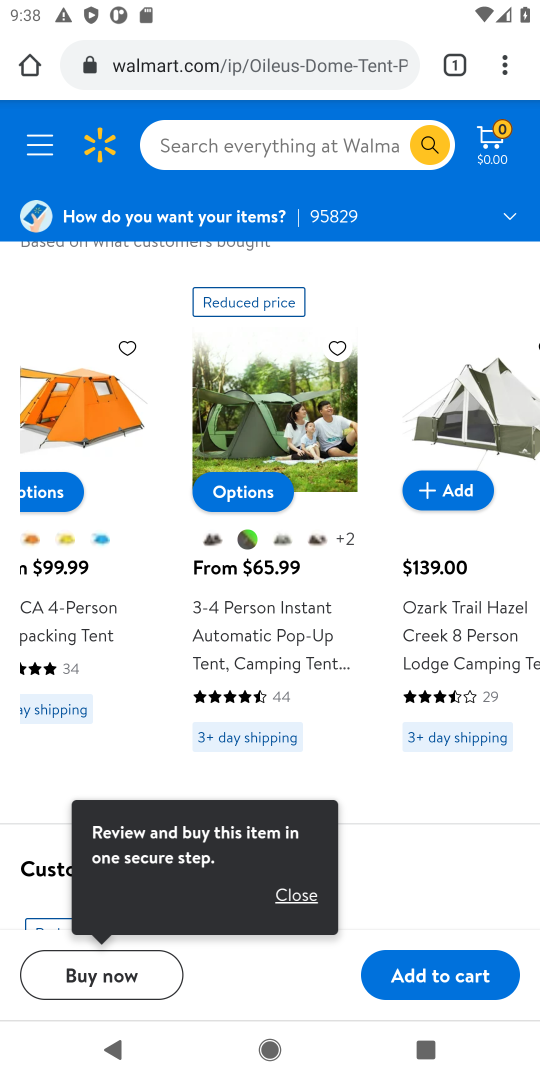
Step 53: drag from (238, 596) to (79, 630)
Your task to perform on an android device: Where can I buy a nice beach tent? Image 54: 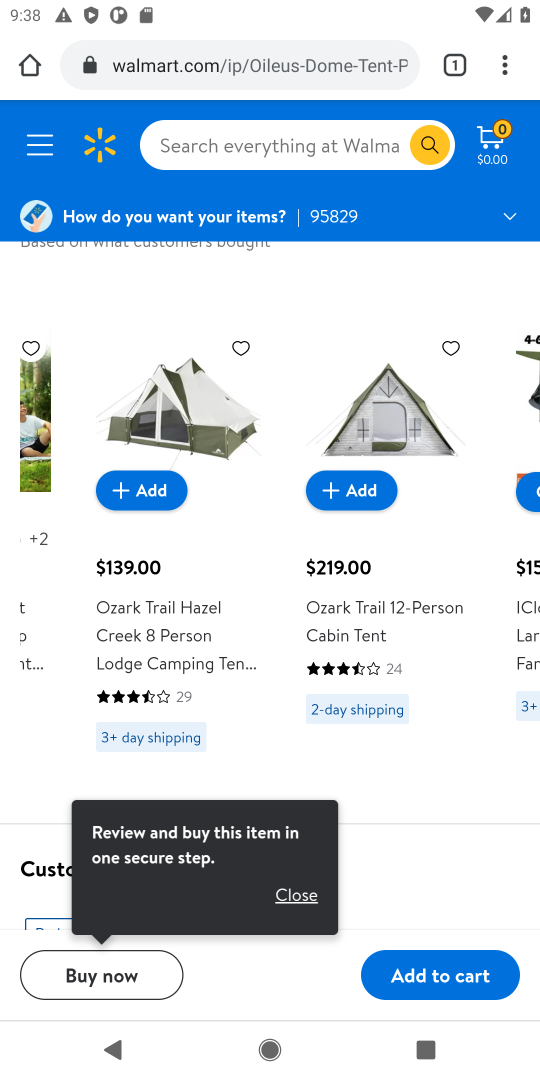
Step 54: drag from (332, 612) to (110, 629)
Your task to perform on an android device: Where can I buy a nice beach tent? Image 55: 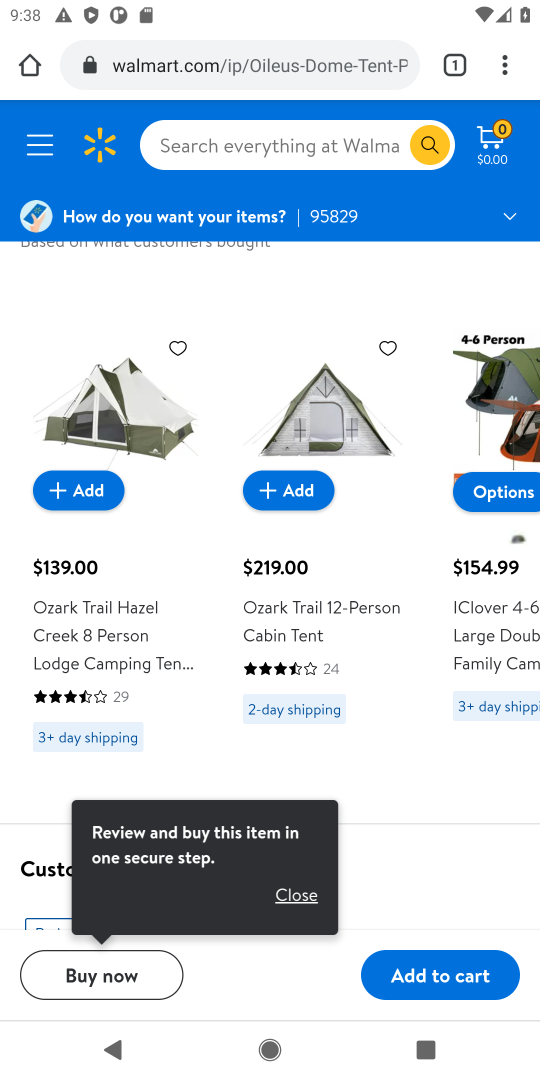
Step 55: drag from (383, 605) to (112, 648)
Your task to perform on an android device: Where can I buy a nice beach tent? Image 56: 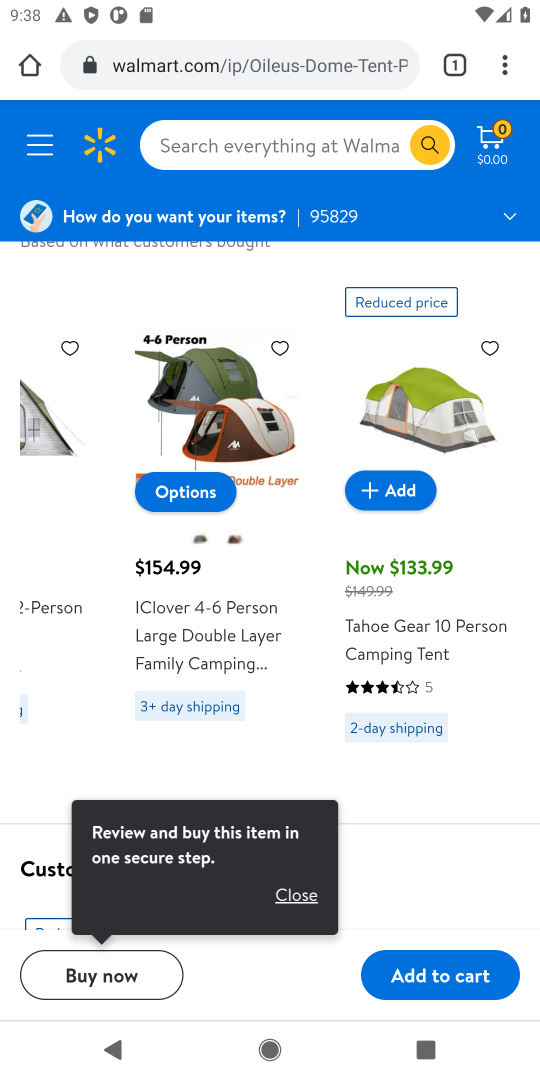
Step 56: click (310, 900)
Your task to perform on an android device: Where can I buy a nice beach tent? Image 57: 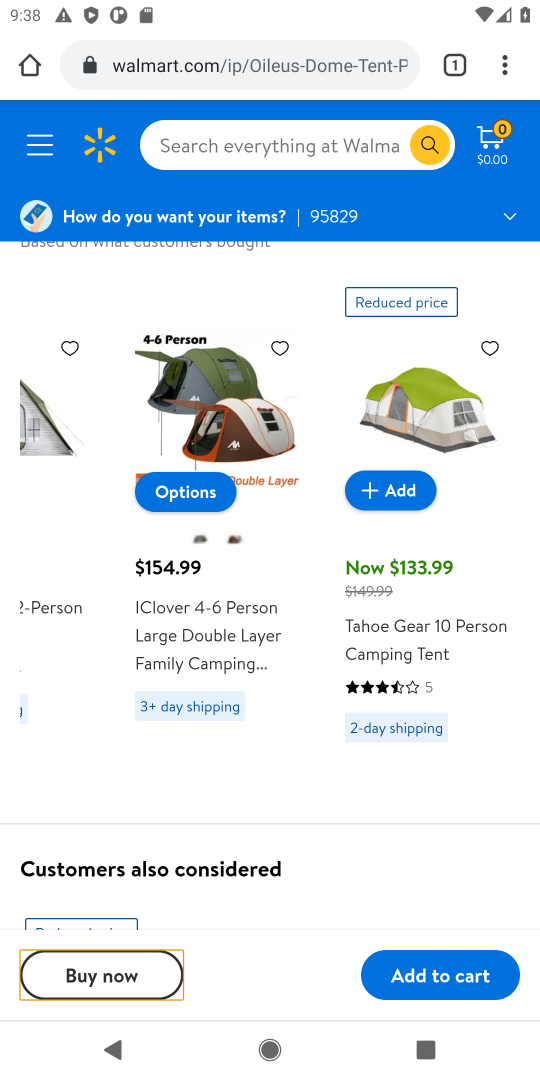
Step 57: press back button
Your task to perform on an android device: Where can I buy a nice beach tent? Image 58: 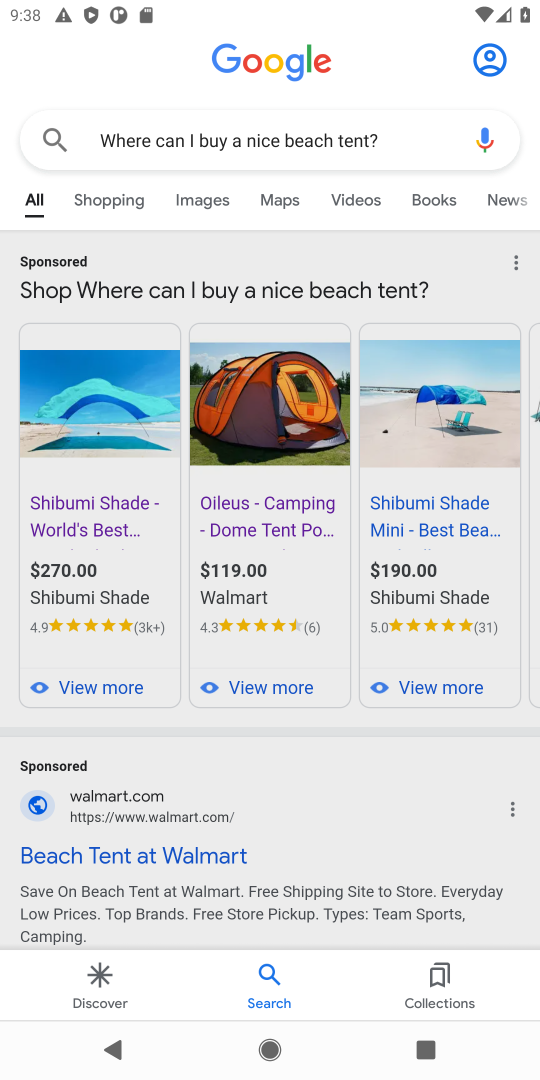
Step 58: drag from (340, 867) to (335, 187)
Your task to perform on an android device: Where can I buy a nice beach tent? Image 59: 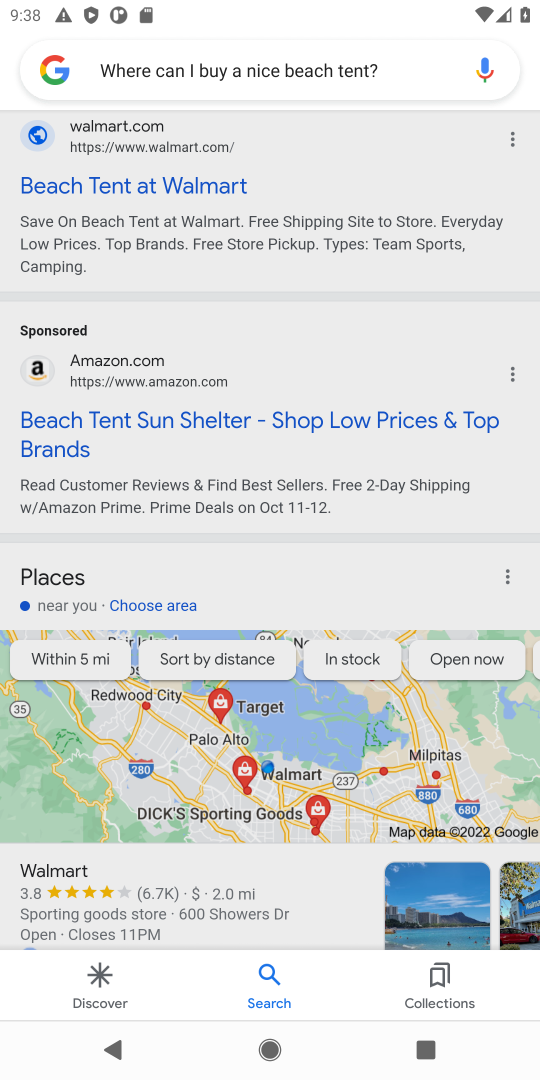
Step 59: drag from (326, 704) to (311, 177)
Your task to perform on an android device: Where can I buy a nice beach tent? Image 60: 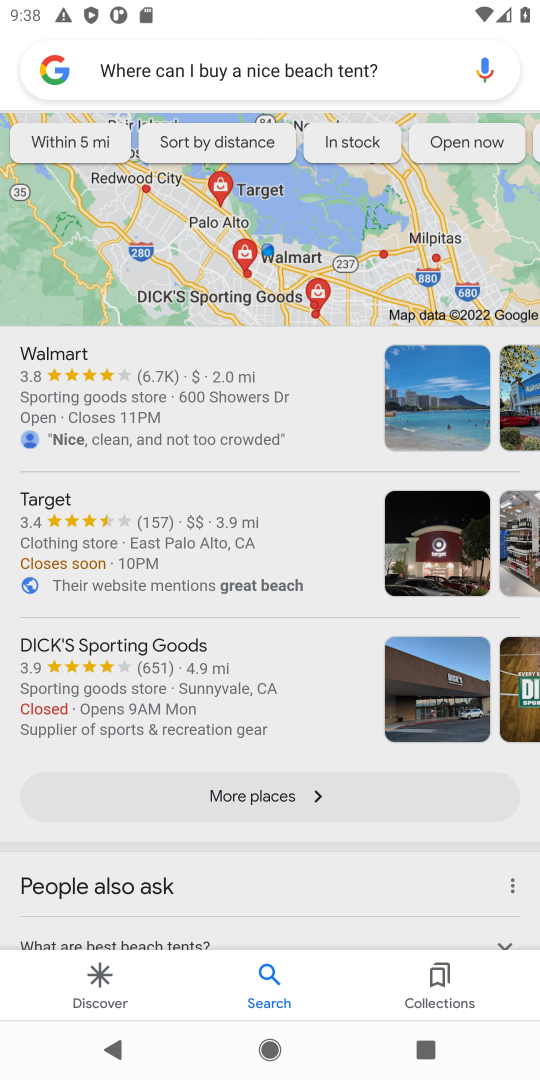
Step 60: drag from (304, 528) to (319, 161)
Your task to perform on an android device: Where can I buy a nice beach tent? Image 61: 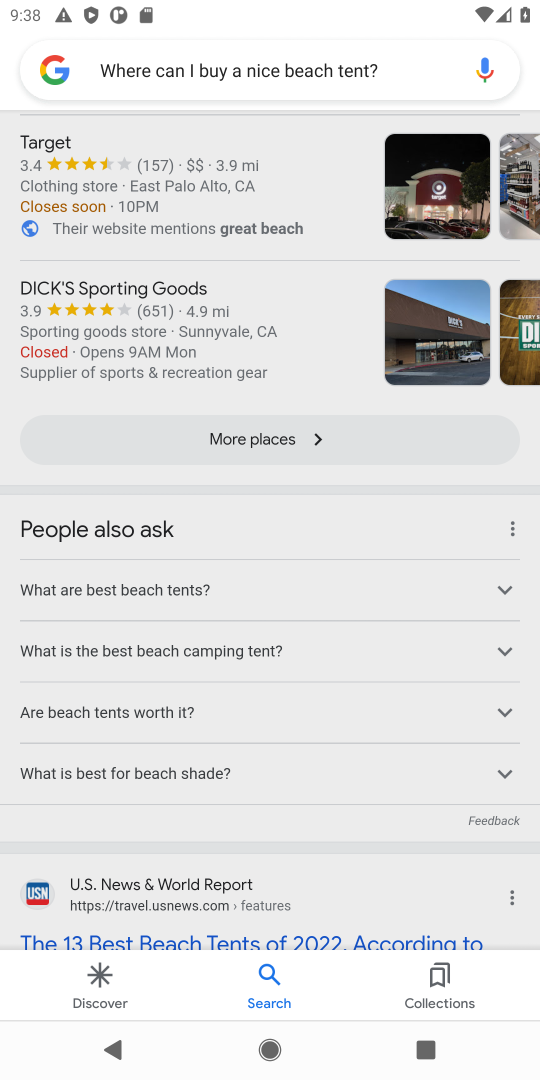
Step 61: drag from (367, 668) to (319, 194)
Your task to perform on an android device: Where can I buy a nice beach tent? Image 62: 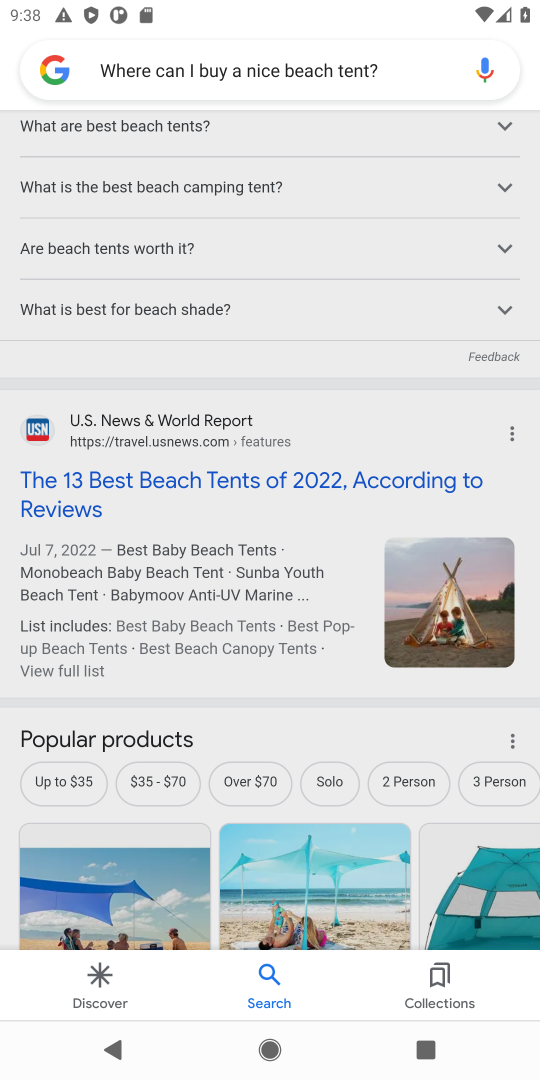
Step 62: click (235, 477)
Your task to perform on an android device: Where can I buy a nice beach tent? Image 63: 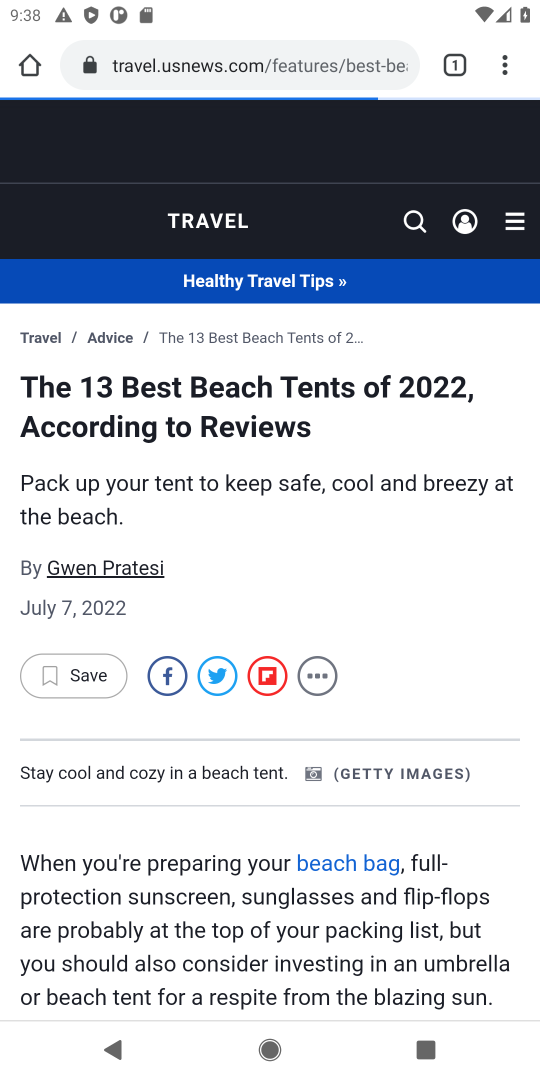
Step 63: drag from (342, 806) to (395, 176)
Your task to perform on an android device: Where can I buy a nice beach tent? Image 64: 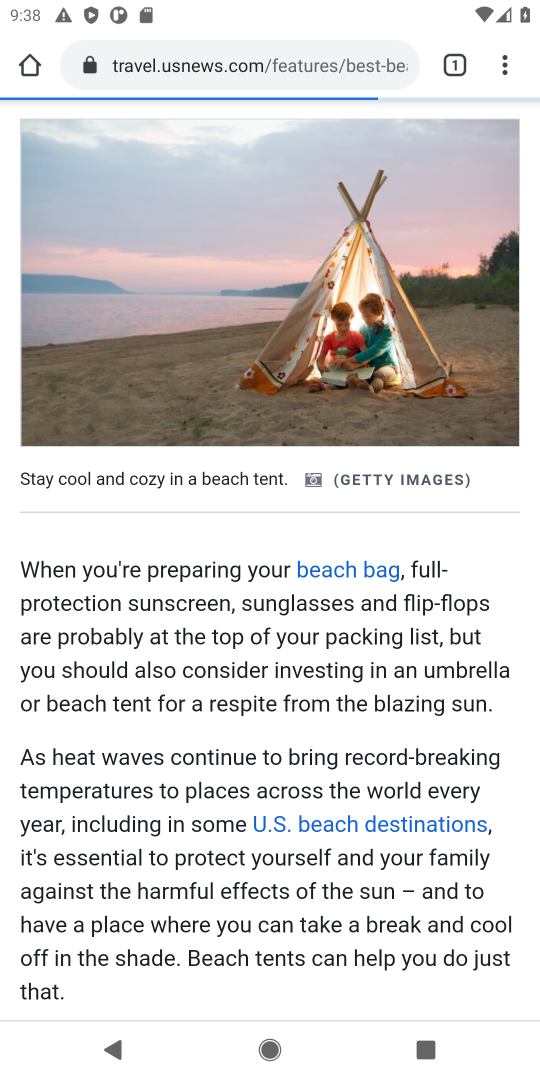
Step 64: drag from (352, 847) to (342, 180)
Your task to perform on an android device: Where can I buy a nice beach tent? Image 65: 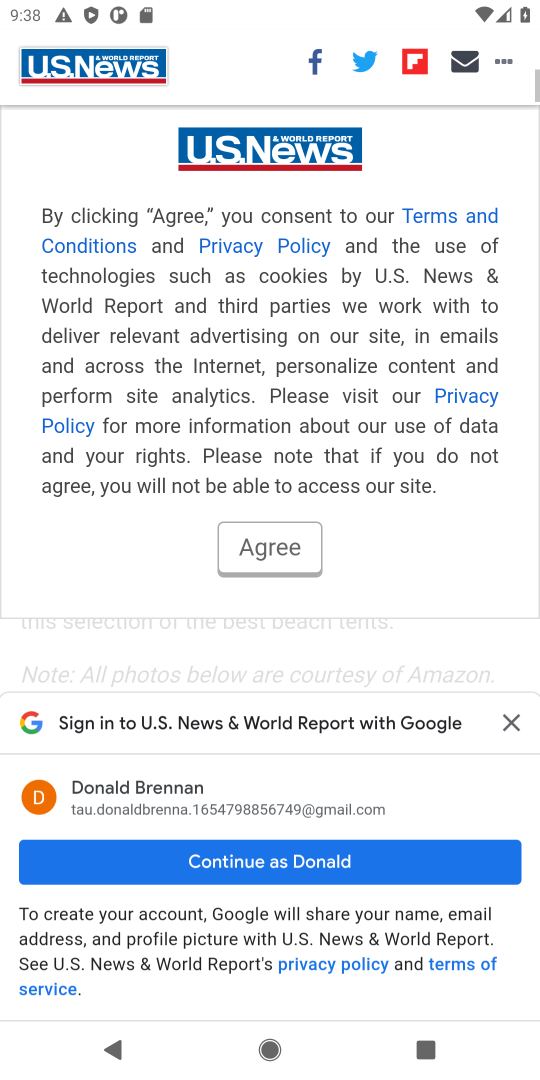
Step 65: click (299, 546)
Your task to perform on an android device: Where can I buy a nice beach tent? Image 66: 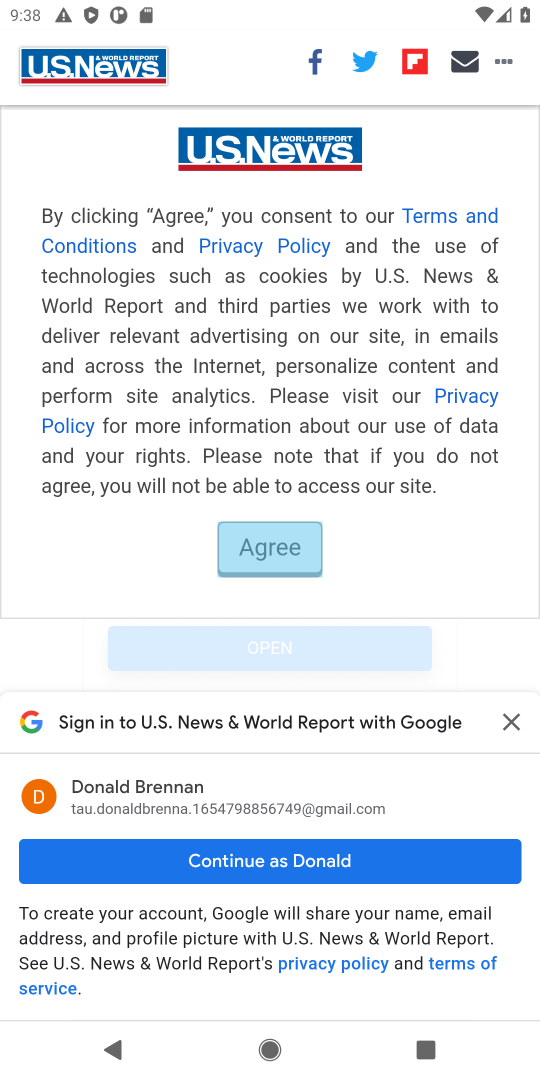
Step 66: task complete